Your task to perform on an android device: uninstall "Google Duo" Image 0: 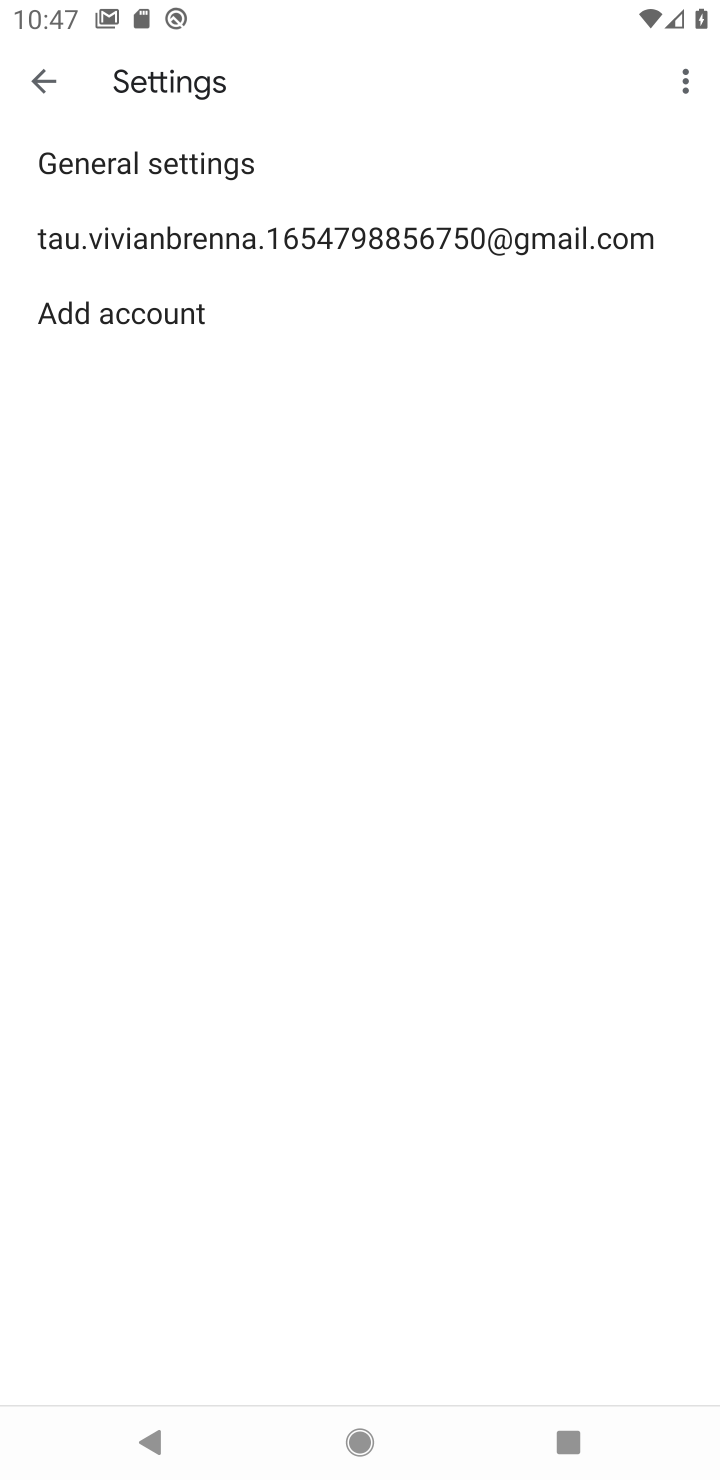
Step 0: click (40, 79)
Your task to perform on an android device: uninstall "Google Duo" Image 1: 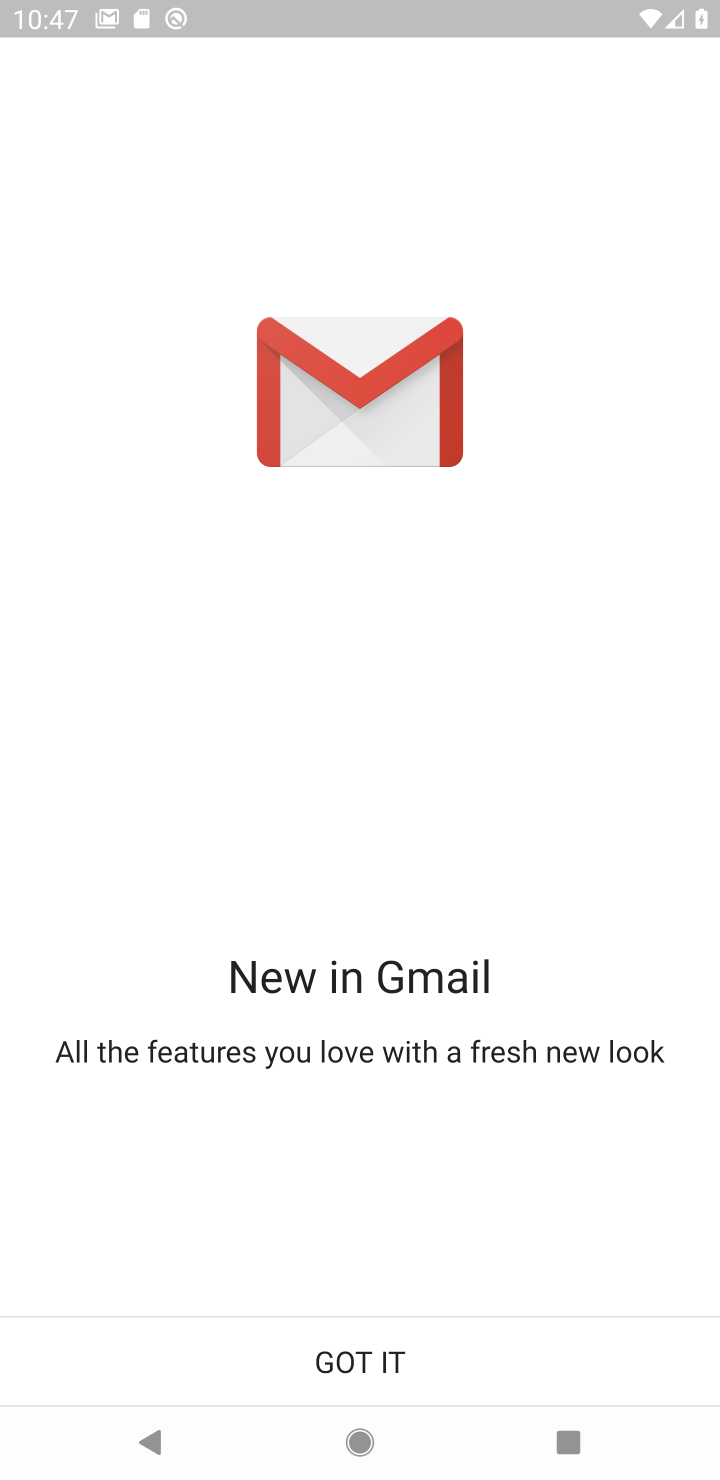
Step 1: press back button
Your task to perform on an android device: uninstall "Google Duo" Image 2: 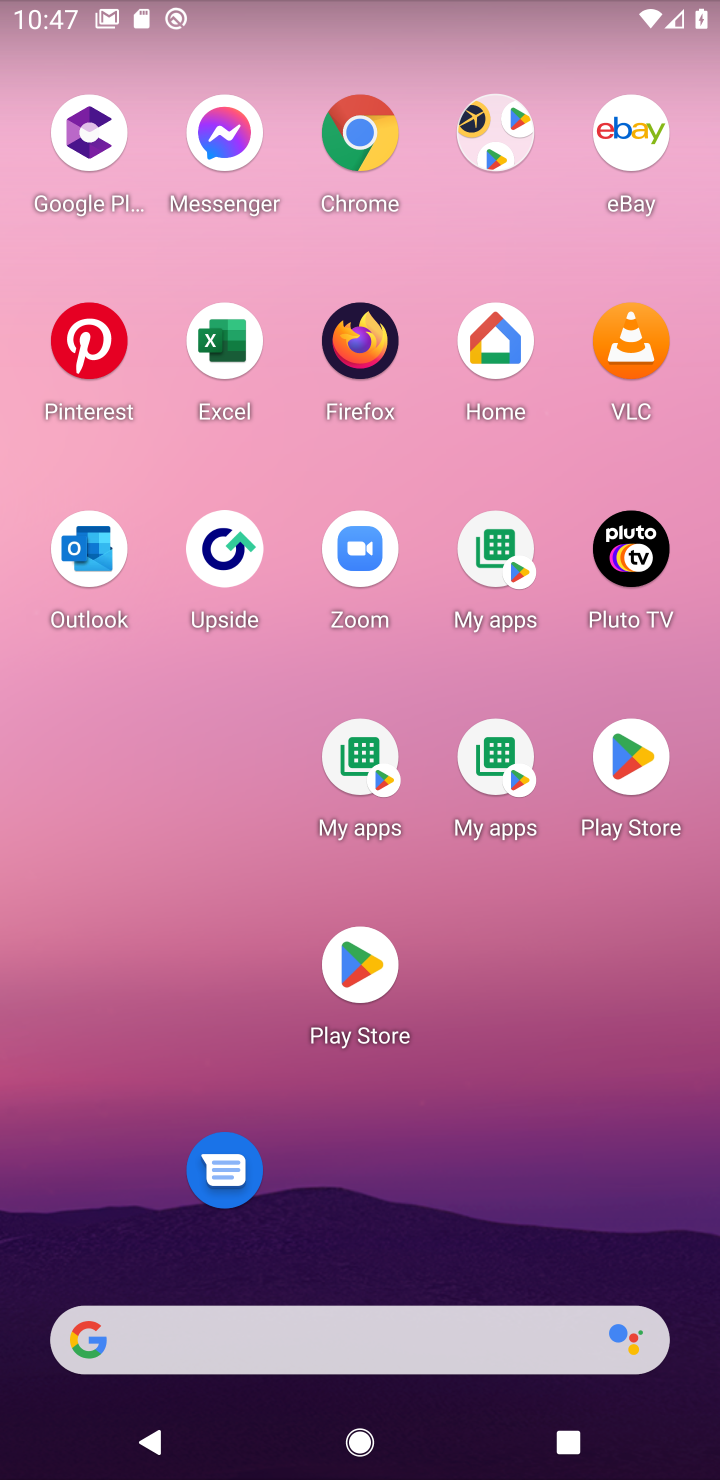
Step 2: drag from (440, 1093) to (201, 414)
Your task to perform on an android device: uninstall "Google Duo" Image 3: 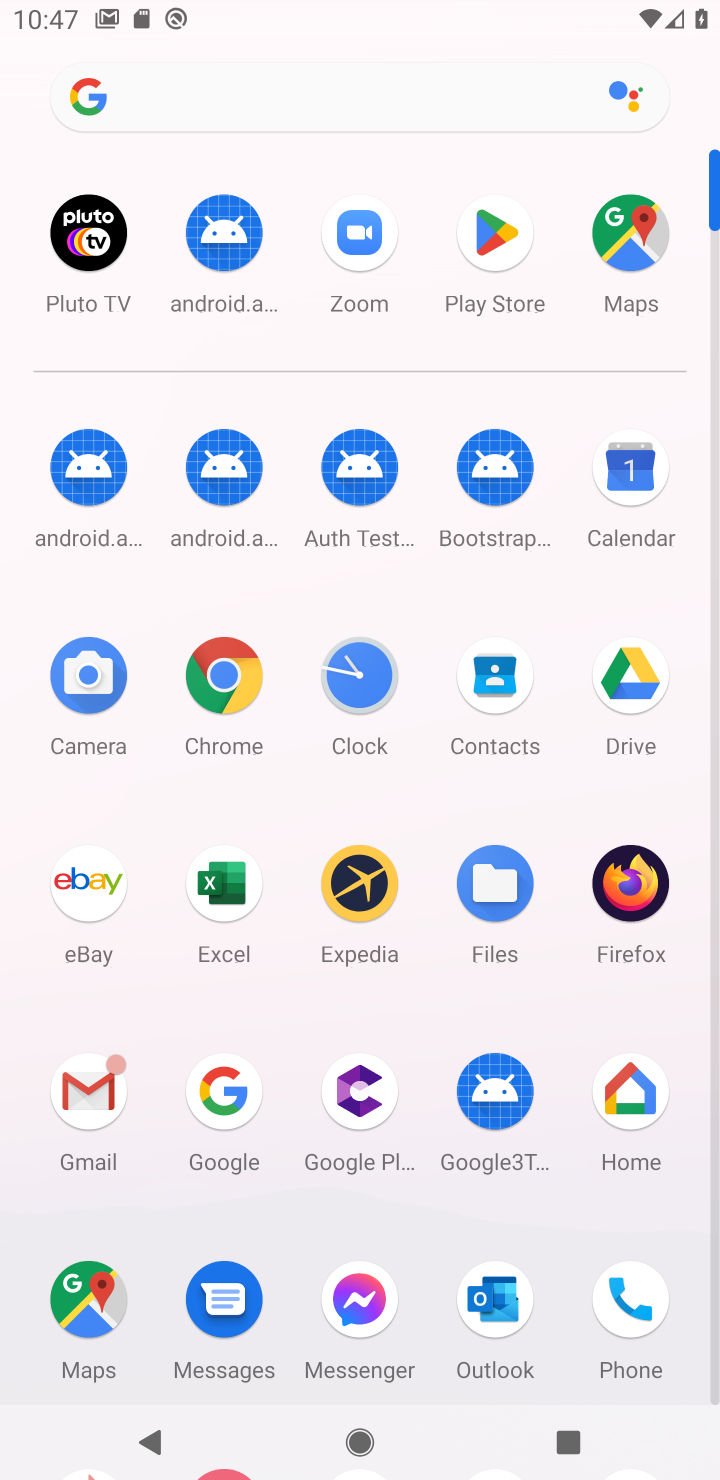
Step 3: click (627, 753)
Your task to perform on an android device: uninstall "Google Duo" Image 4: 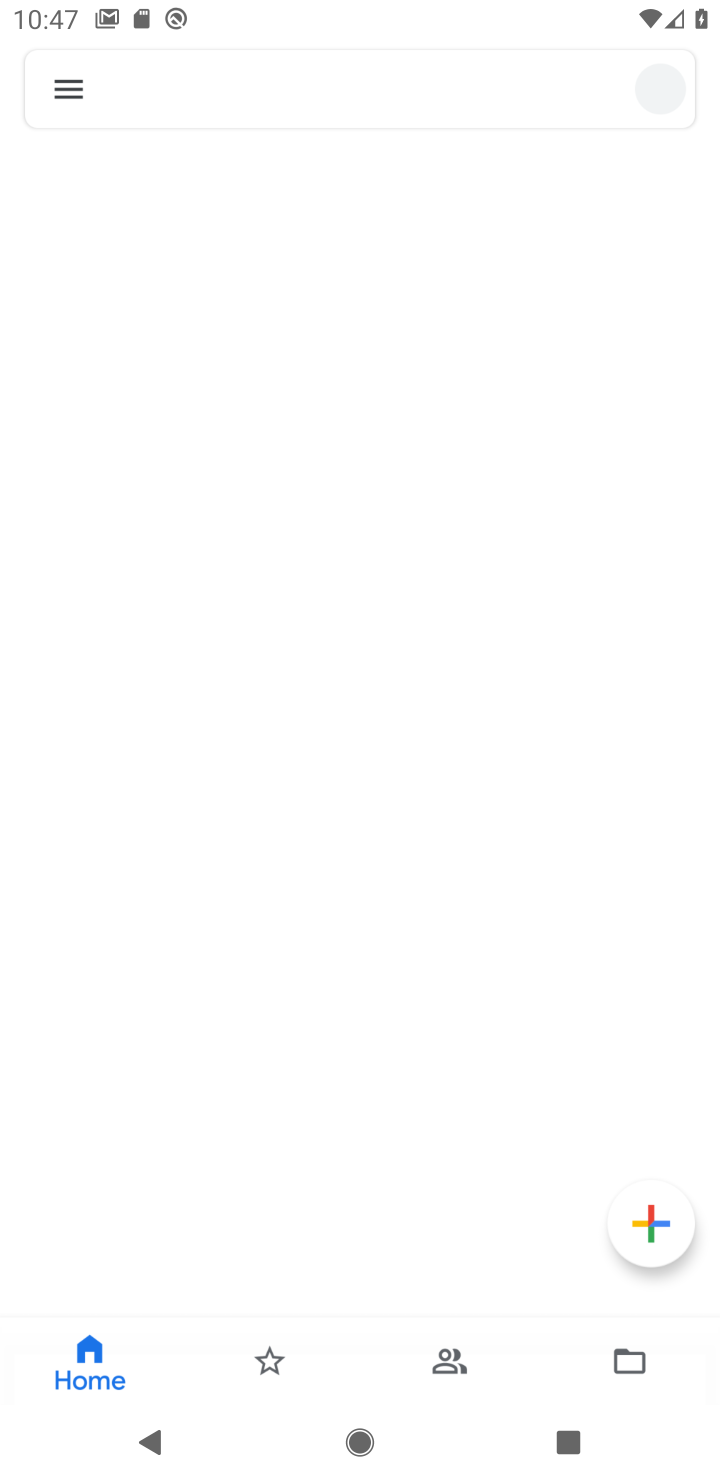
Step 4: click (497, 270)
Your task to perform on an android device: uninstall "Google Duo" Image 5: 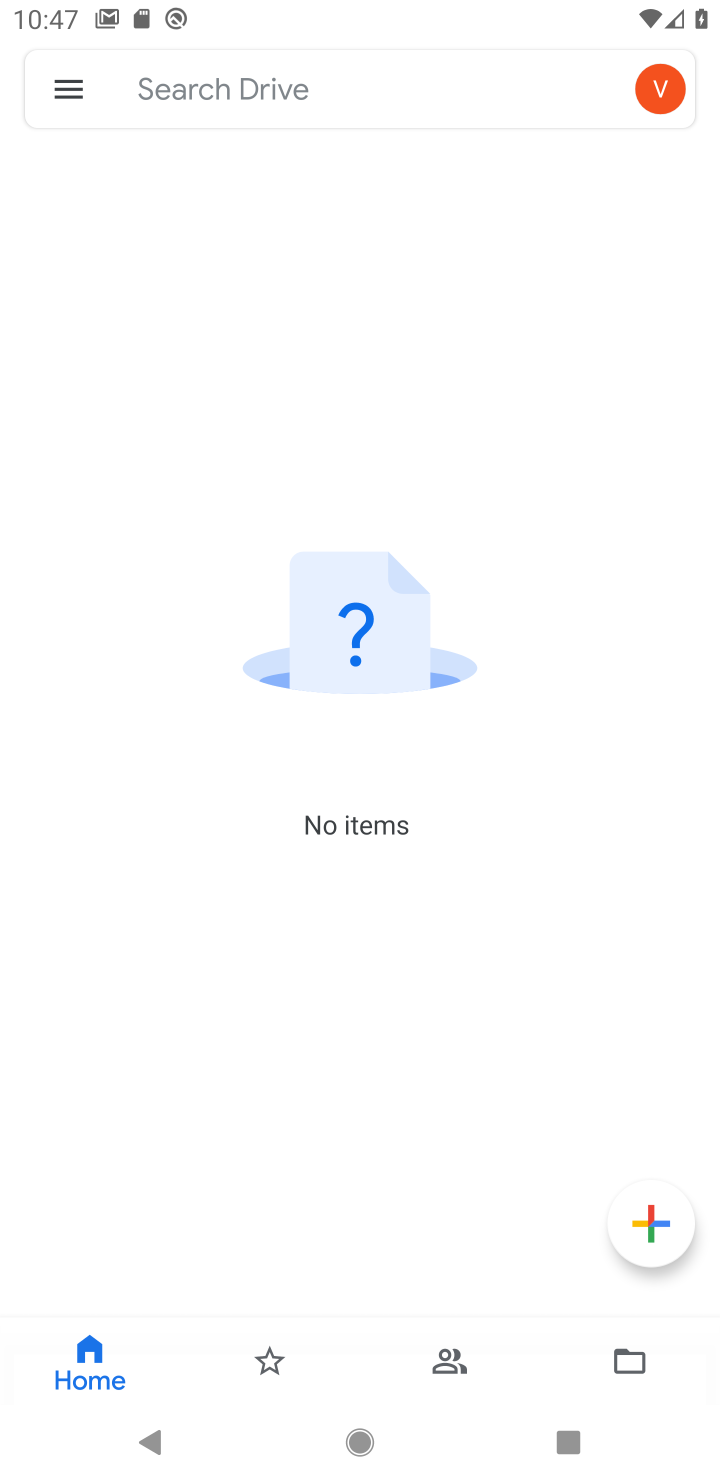
Step 5: click (494, 310)
Your task to perform on an android device: uninstall "Google Duo" Image 6: 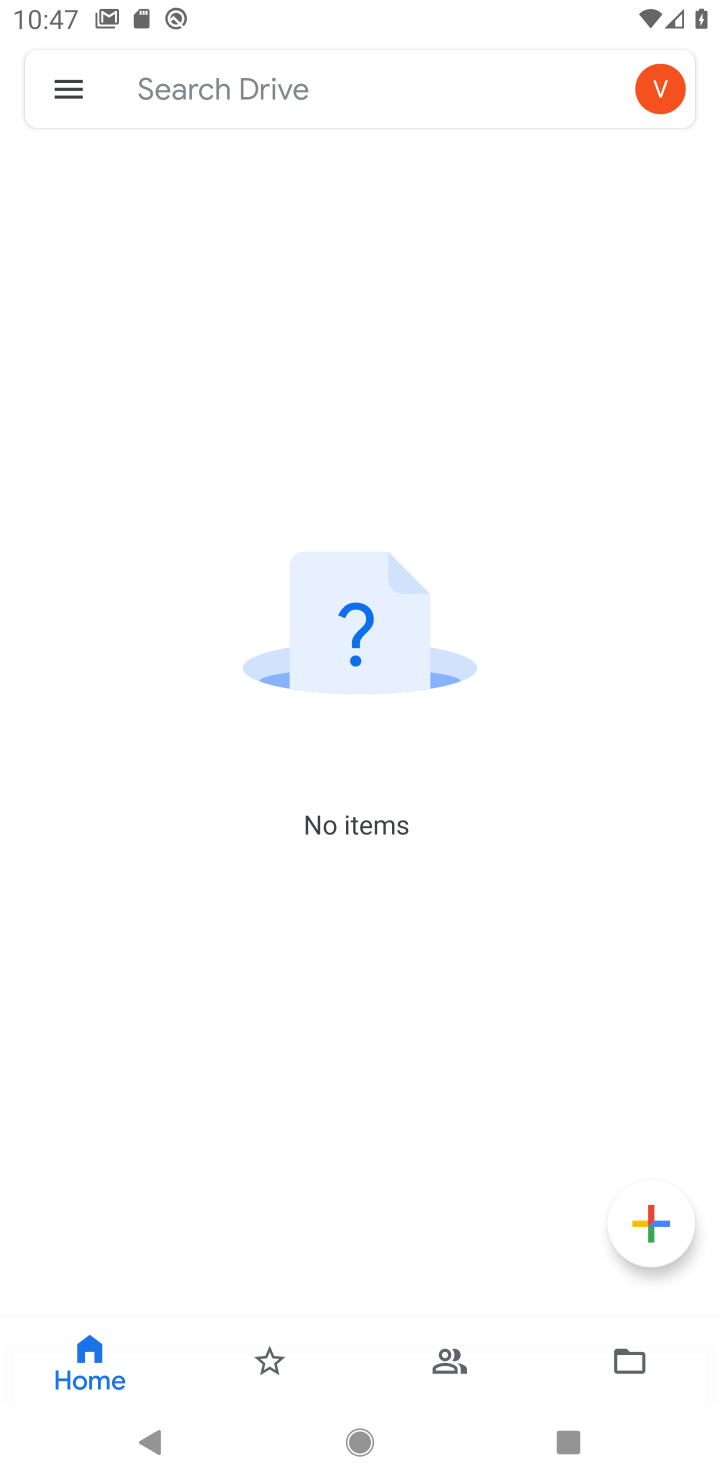
Step 6: press back button
Your task to perform on an android device: uninstall "Google Duo" Image 7: 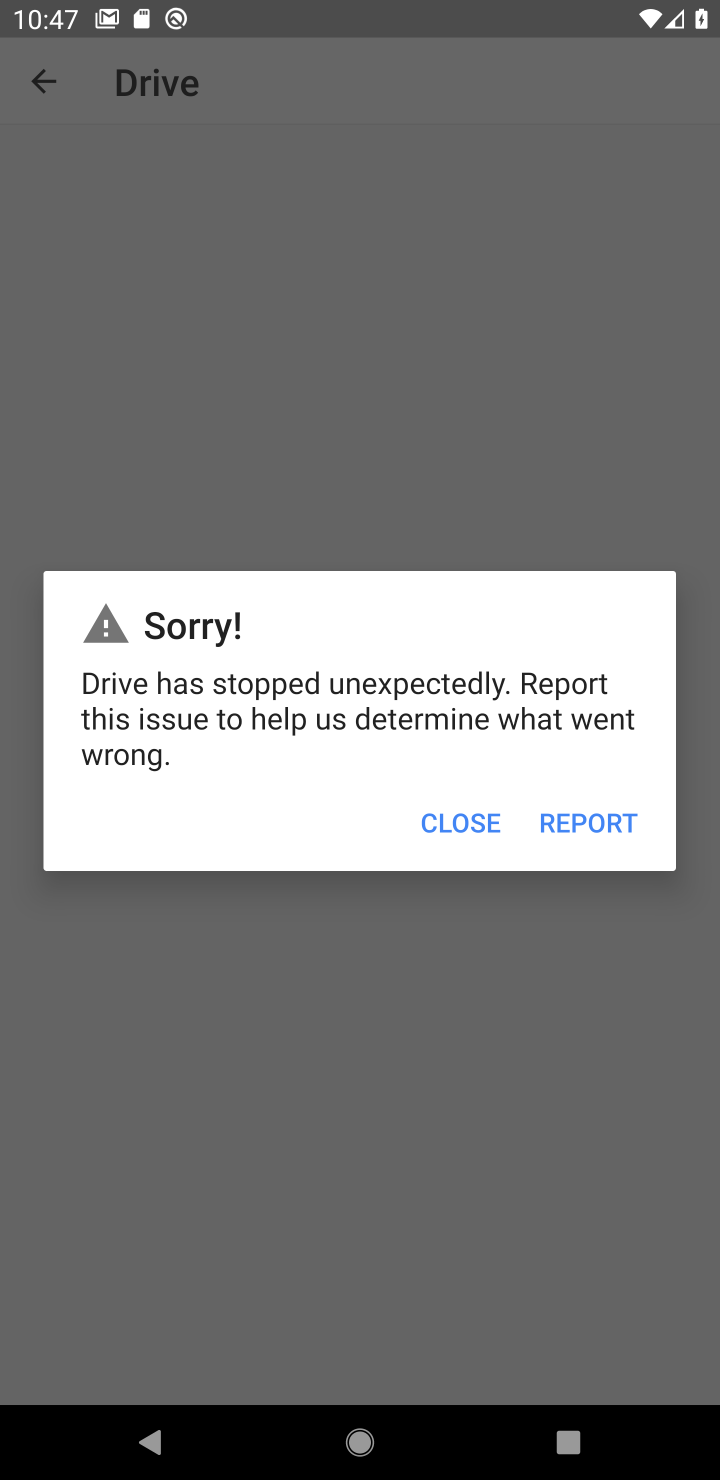
Step 7: click (481, 818)
Your task to perform on an android device: uninstall "Google Duo" Image 8: 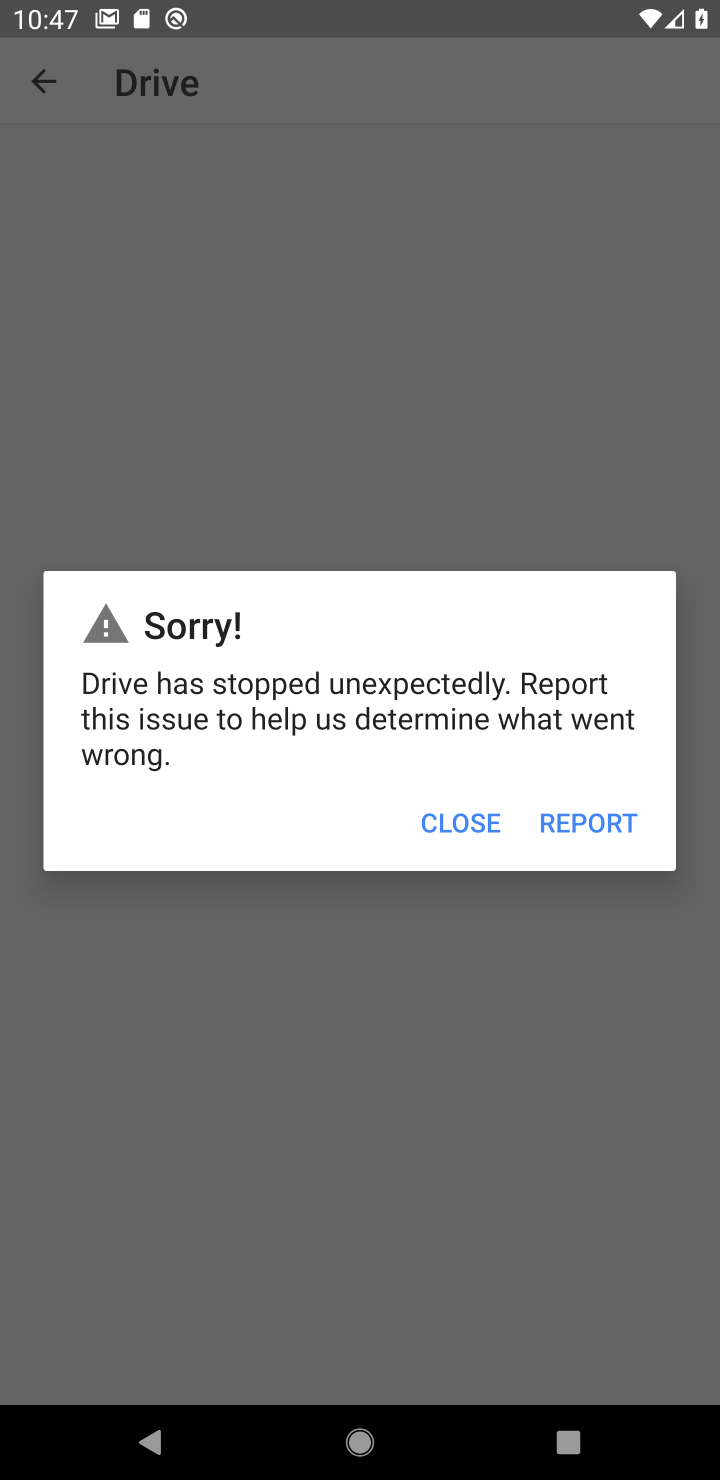
Step 8: click (481, 818)
Your task to perform on an android device: uninstall "Google Duo" Image 9: 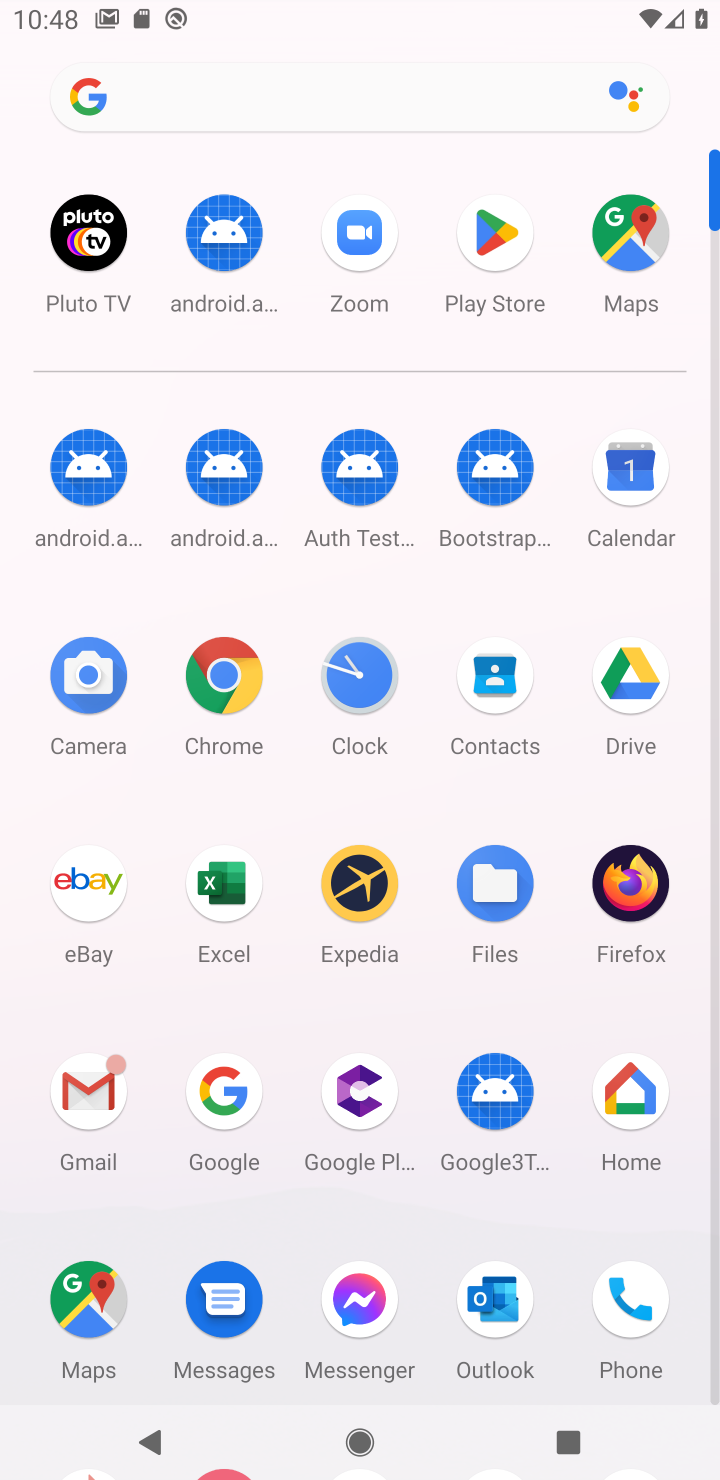
Step 9: click (497, 245)
Your task to perform on an android device: uninstall "Google Duo" Image 10: 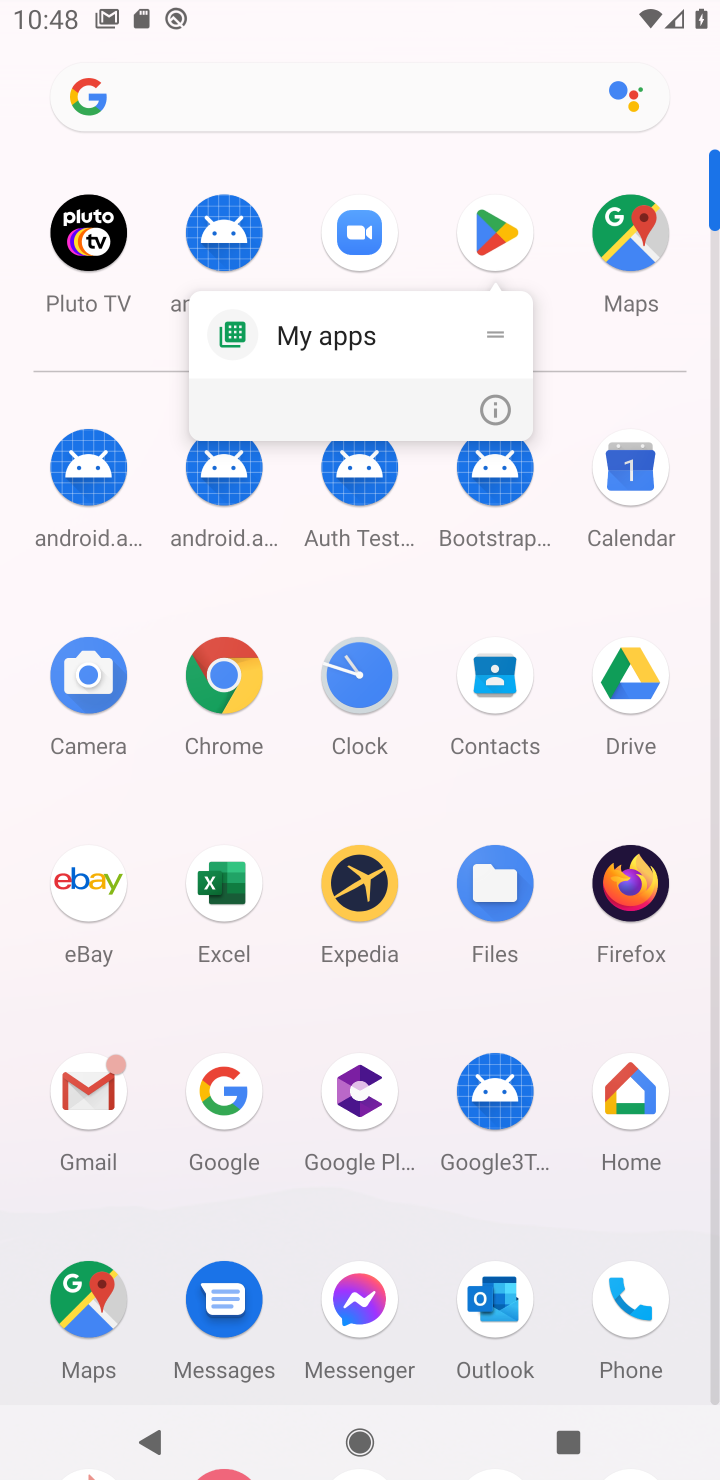
Step 10: click (496, 245)
Your task to perform on an android device: uninstall "Google Duo" Image 11: 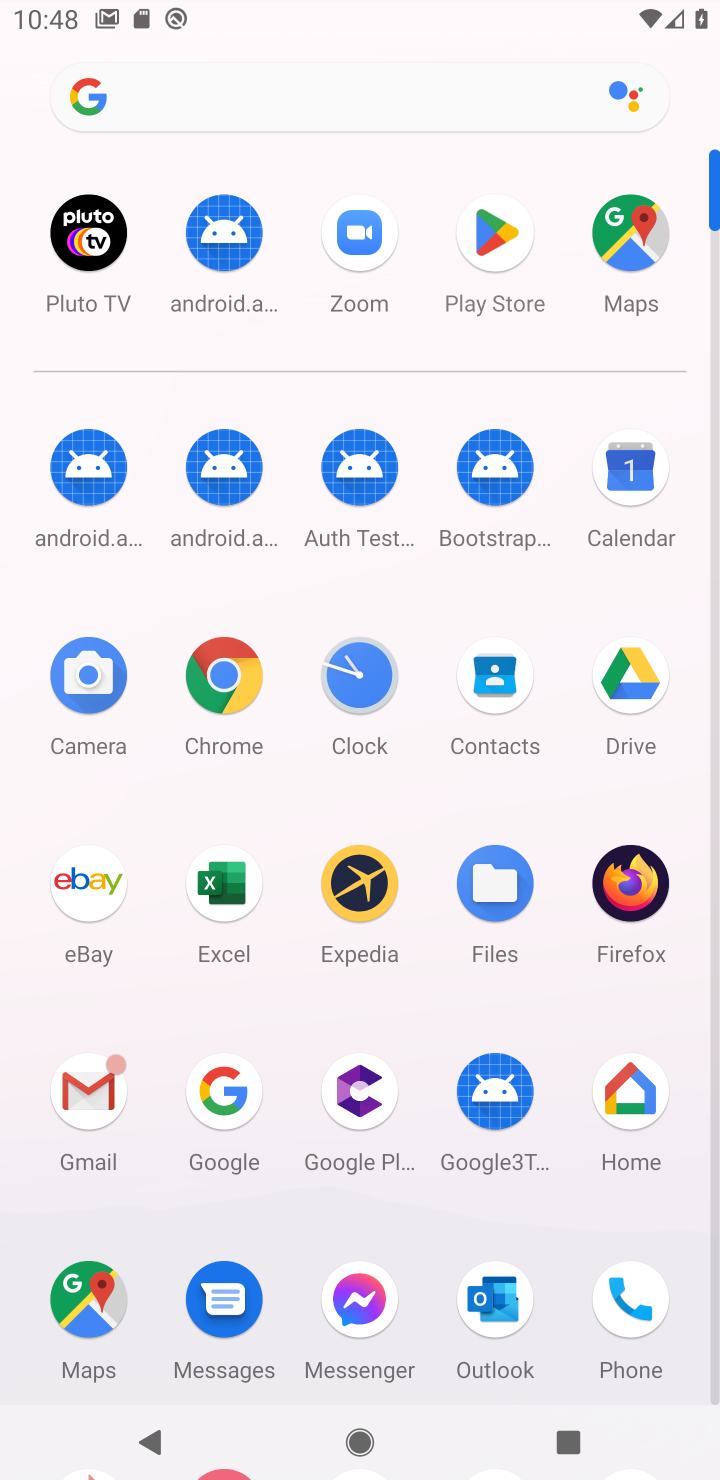
Step 11: click (363, 337)
Your task to perform on an android device: uninstall "Google Duo" Image 12: 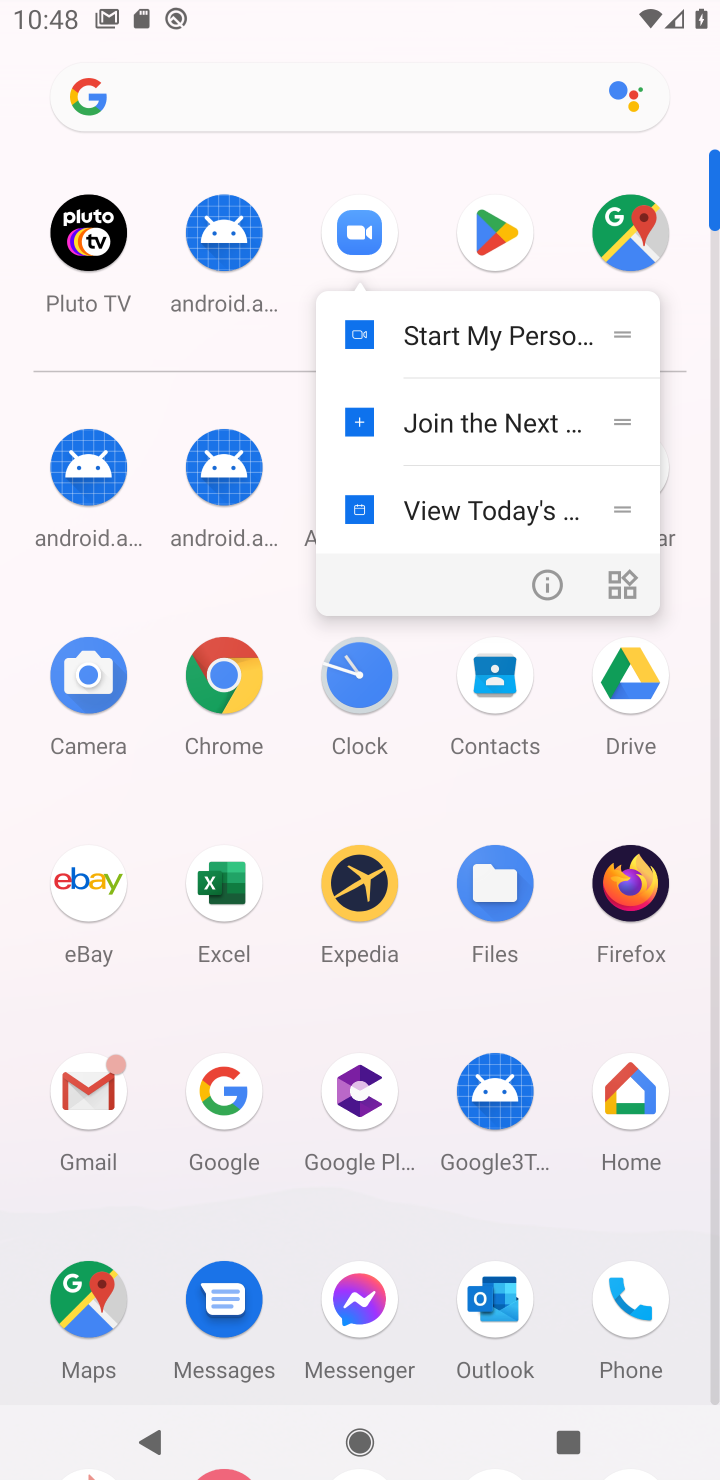
Step 12: click (491, 244)
Your task to perform on an android device: uninstall "Google Duo" Image 13: 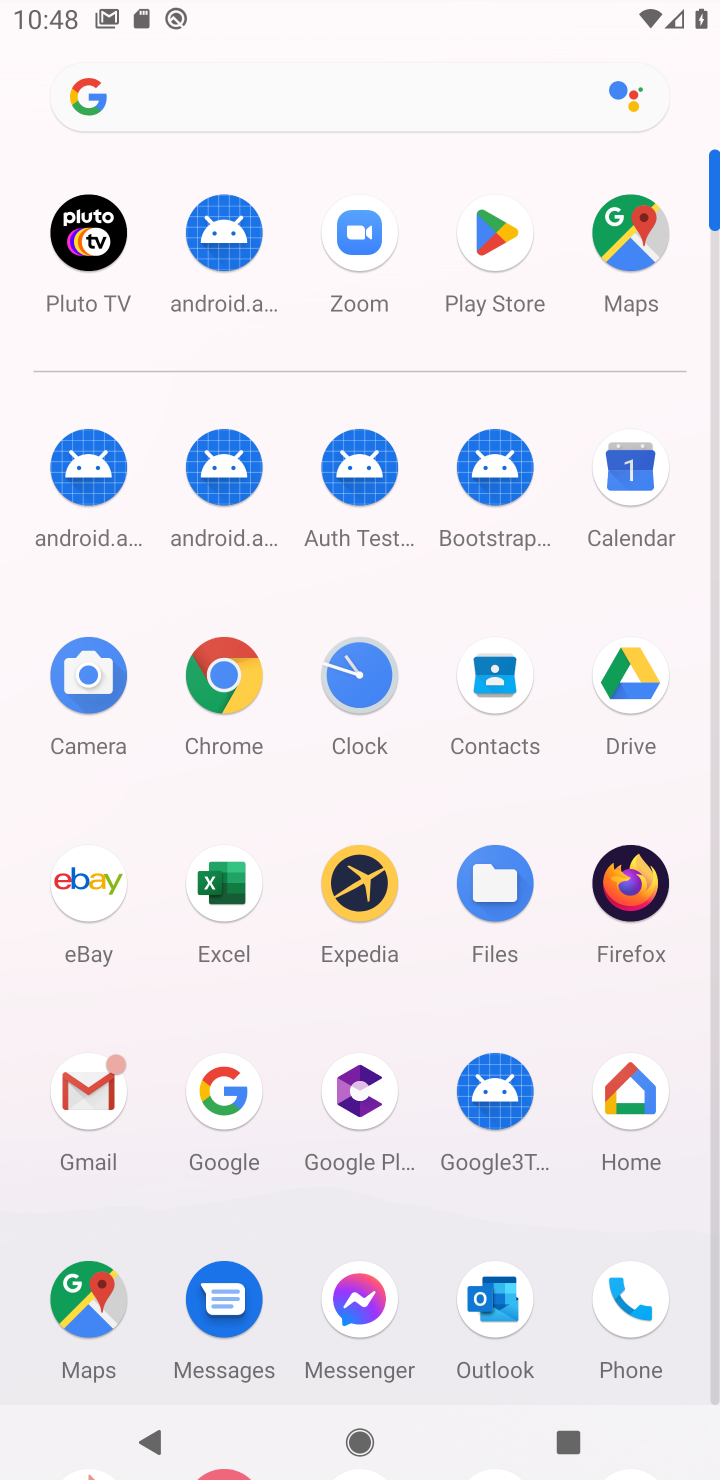
Step 13: click (501, 230)
Your task to perform on an android device: uninstall "Google Duo" Image 14: 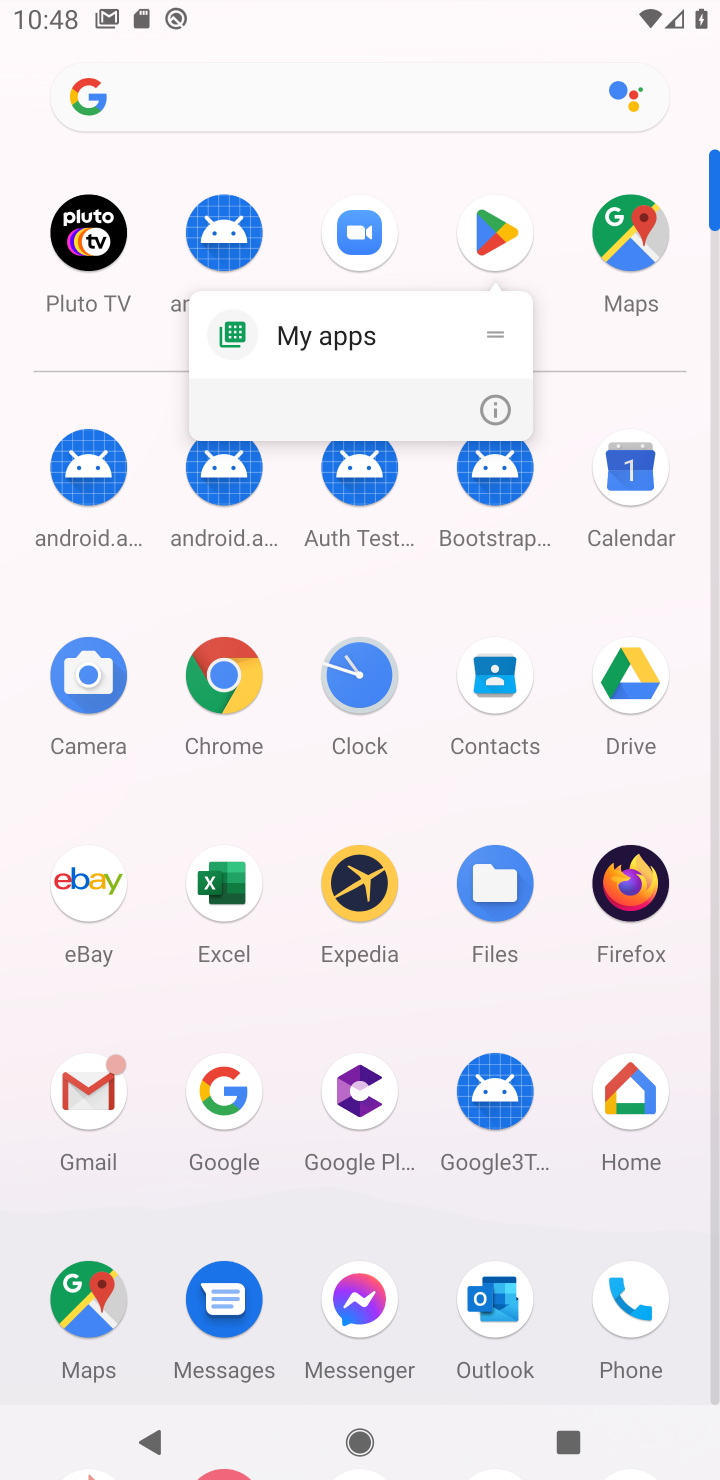
Step 14: click (476, 237)
Your task to perform on an android device: uninstall "Google Duo" Image 15: 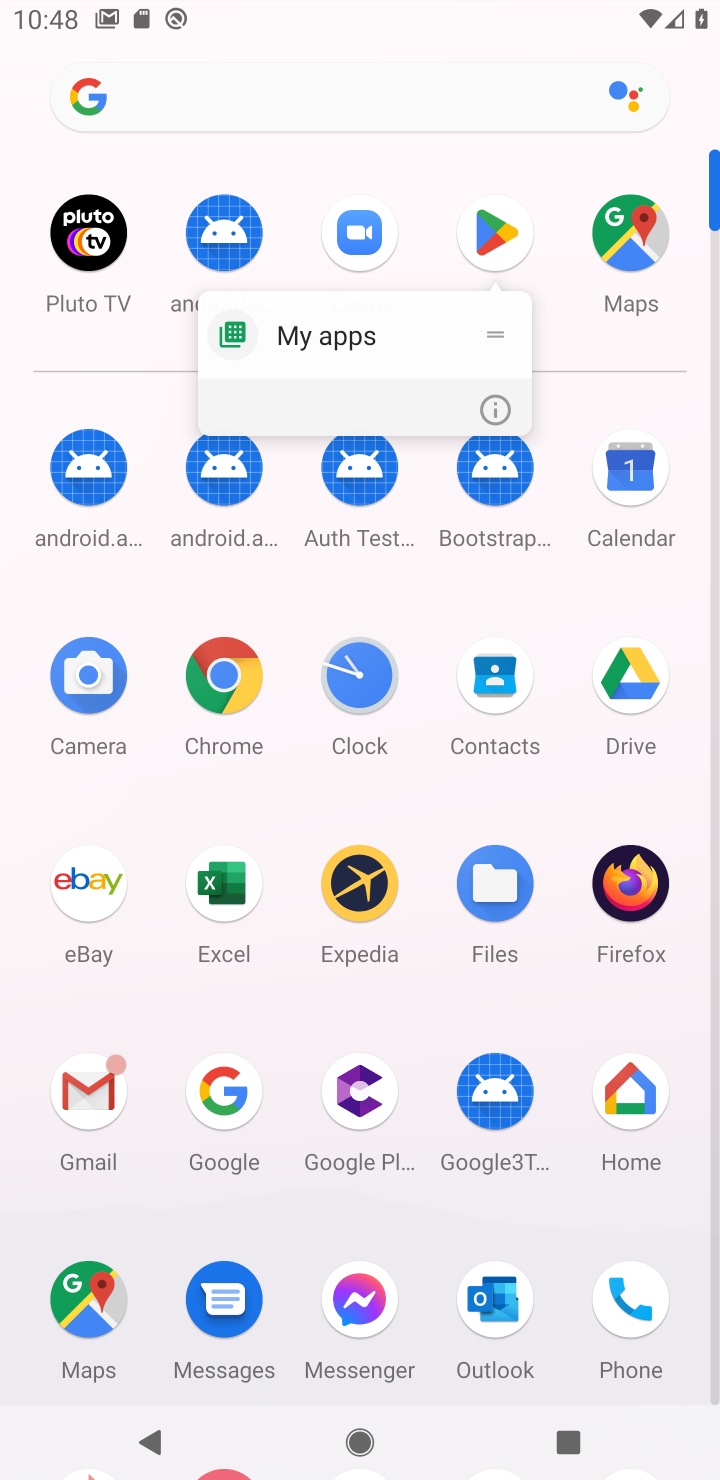
Step 15: click (494, 223)
Your task to perform on an android device: uninstall "Google Duo" Image 16: 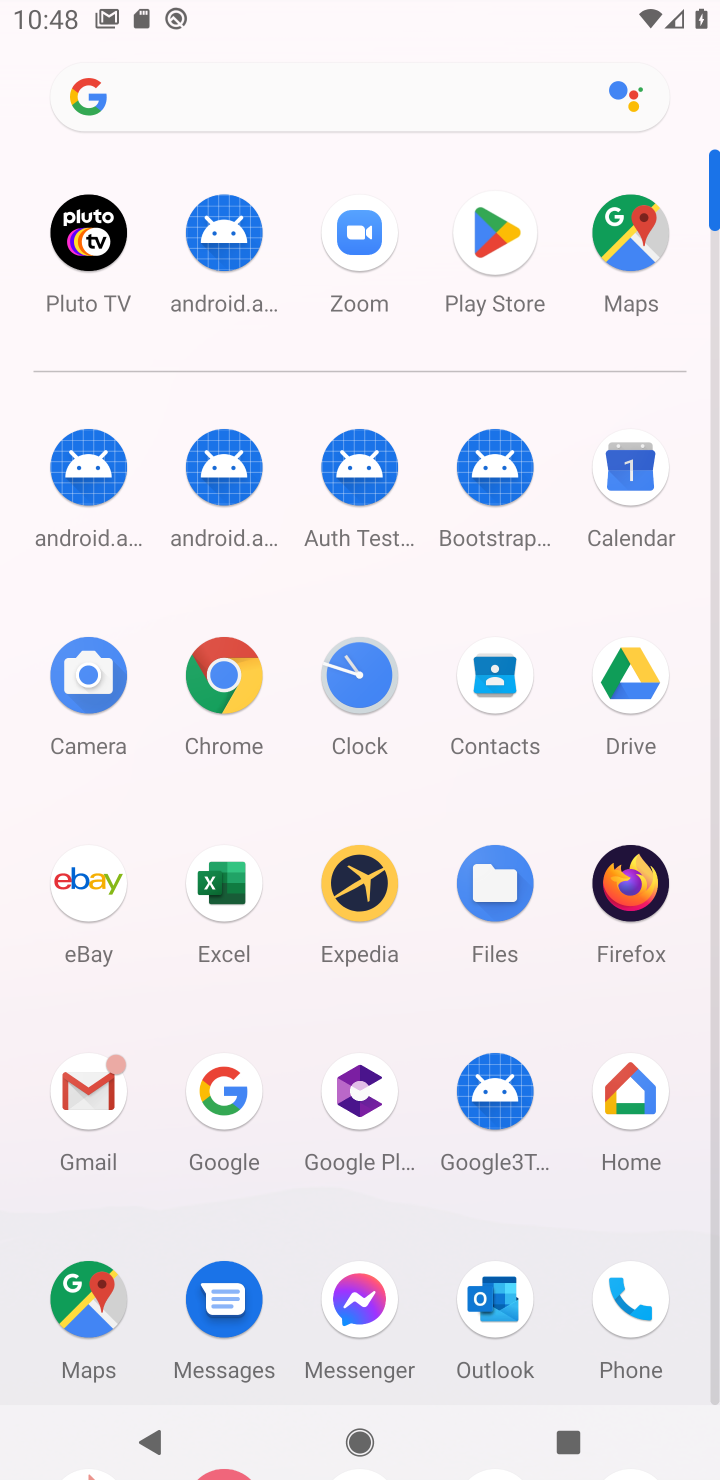
Step 16: click (516, 198)
Your task to perform on an android device: uninstall "Google Duo" Image 17: 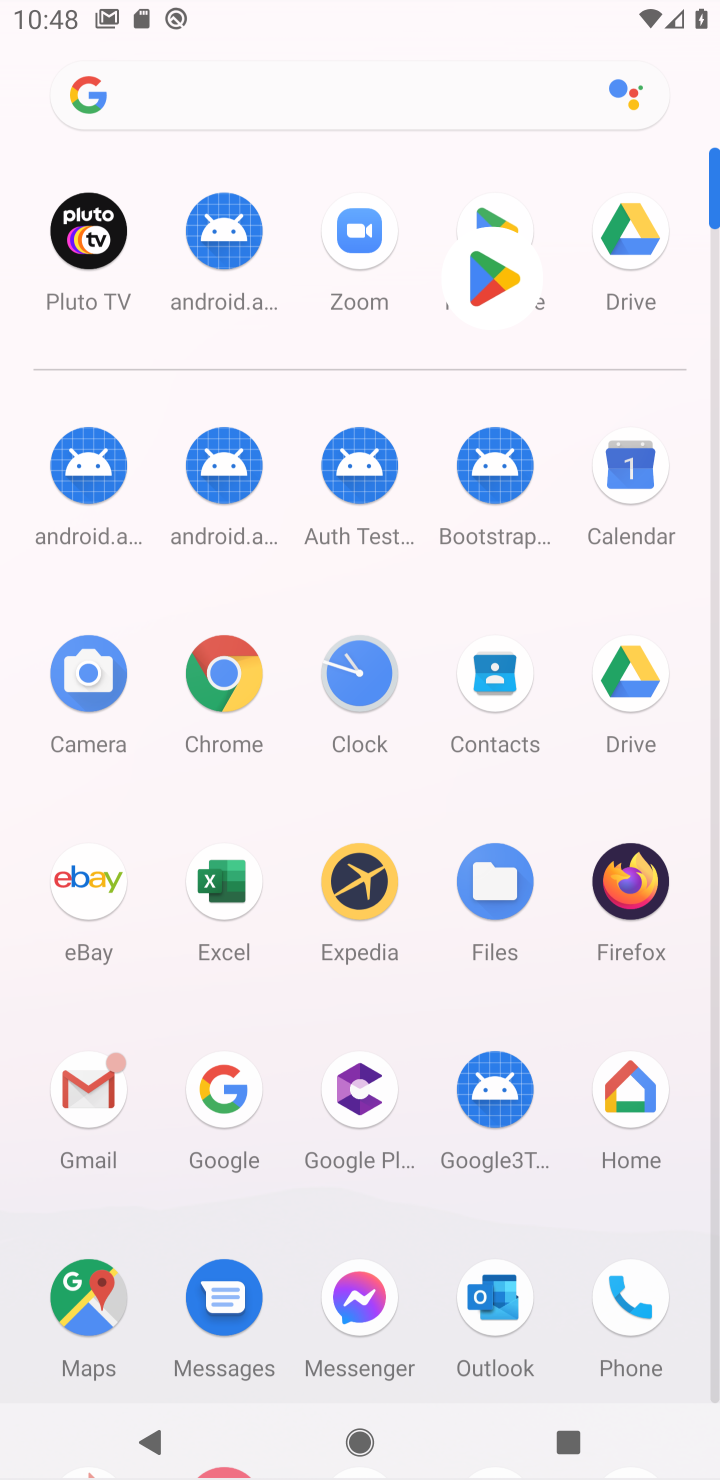
Step 17: click (518, 200)
Your task to perform on an android device: uninstall "Google Duo" Image 18: 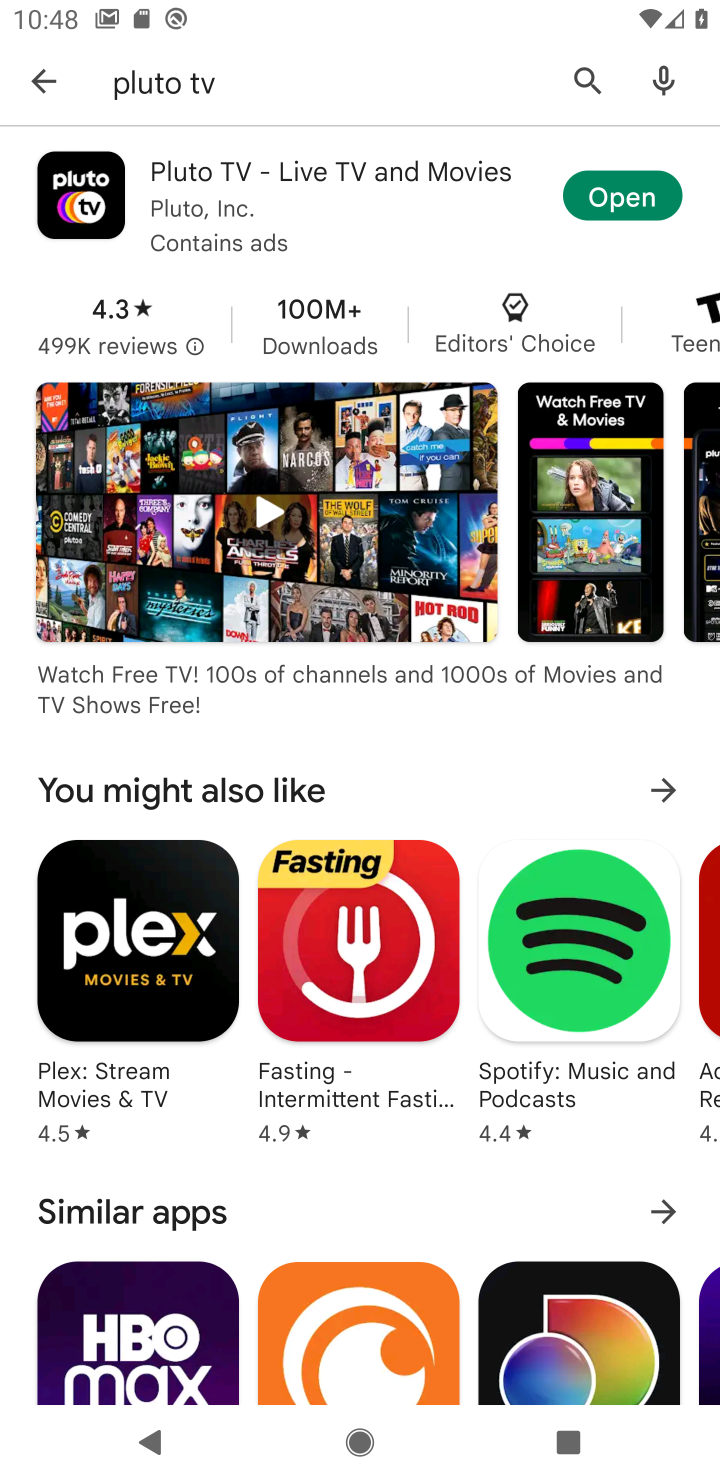
Step 18: click (500, 234)
Your task to perform on an android device: uninstall "Google Duo" Image 19: 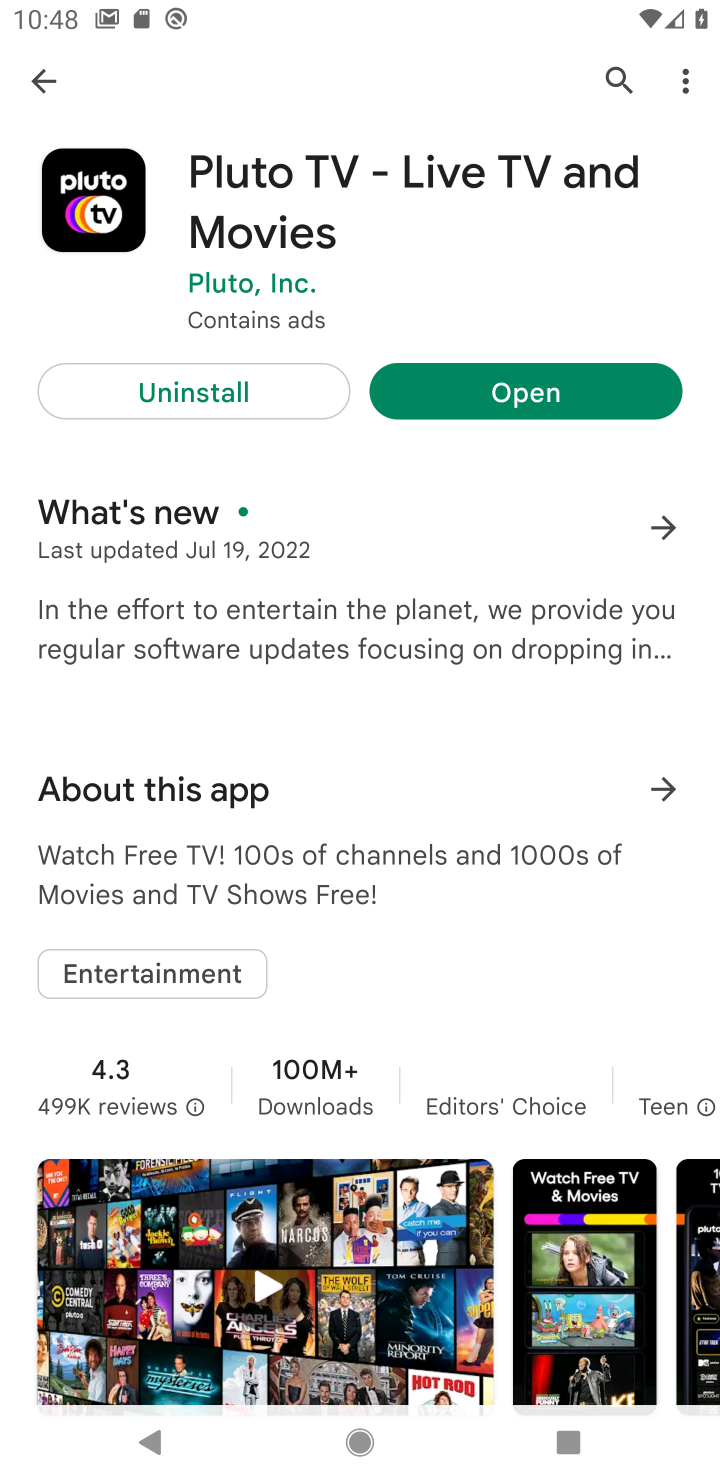
Step 19: click (47, 82)
Your task to perform on an android device: uninstall "Google Duo" Image 20: 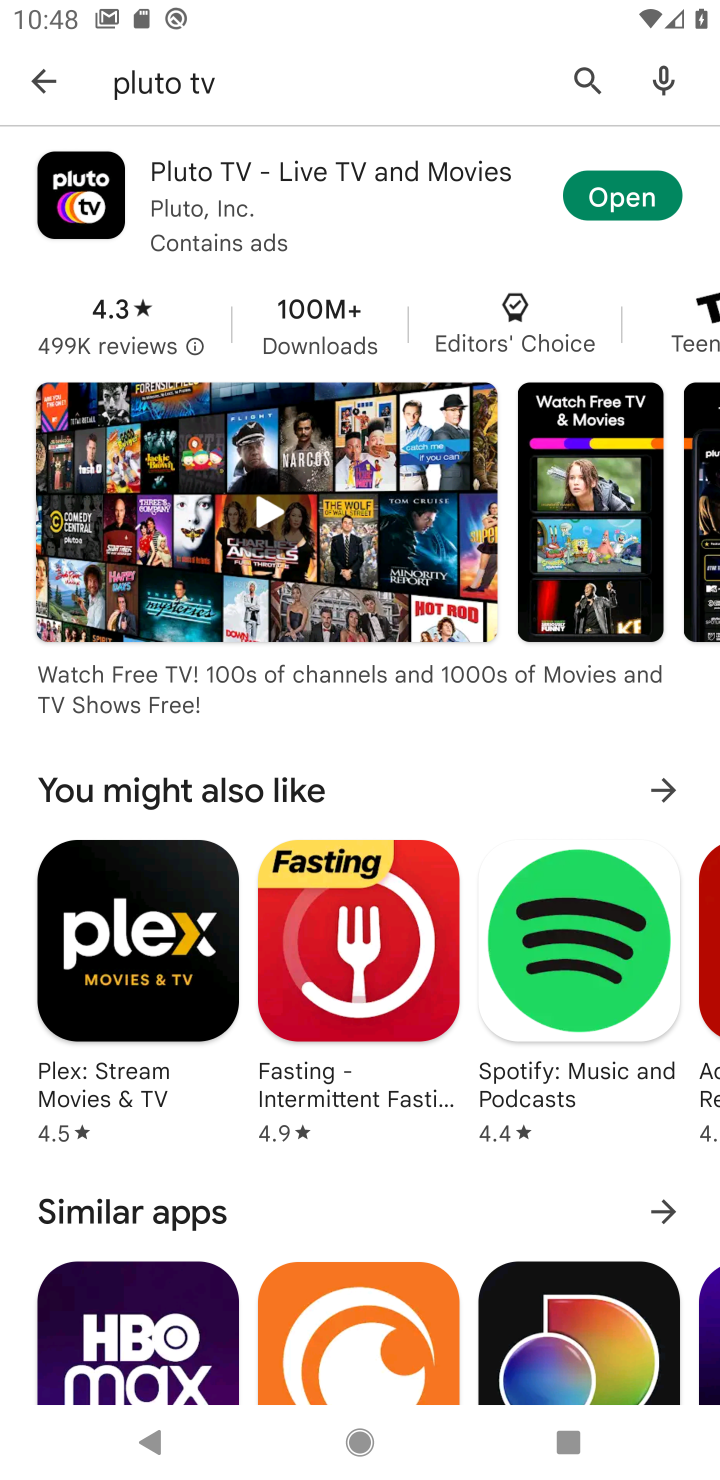
Step 20: click (250, 76)
Your task to perform on an android device: uninstall "Google Duo" Image 21: 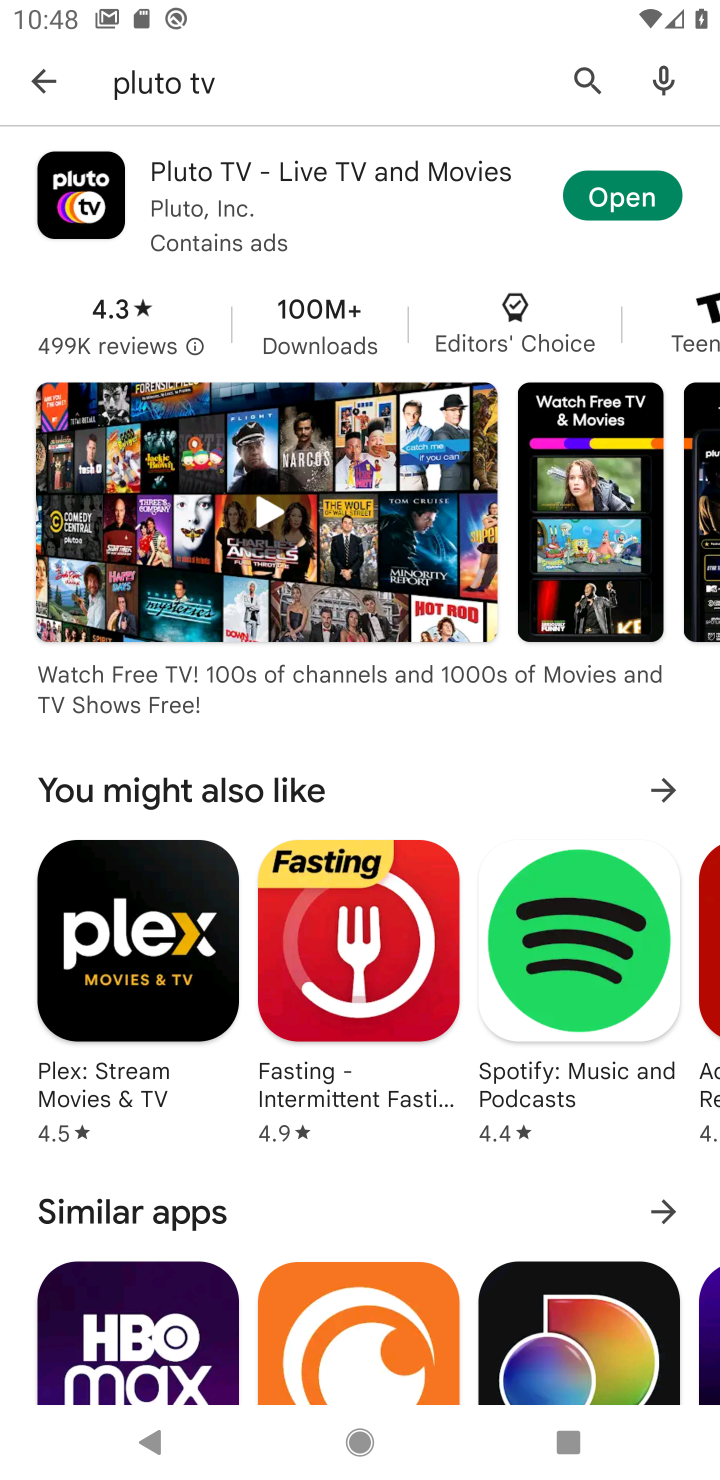
Step 21: click (48, 90)
Your task to perform on an android device: uninstall "Google Duo" Image 22: 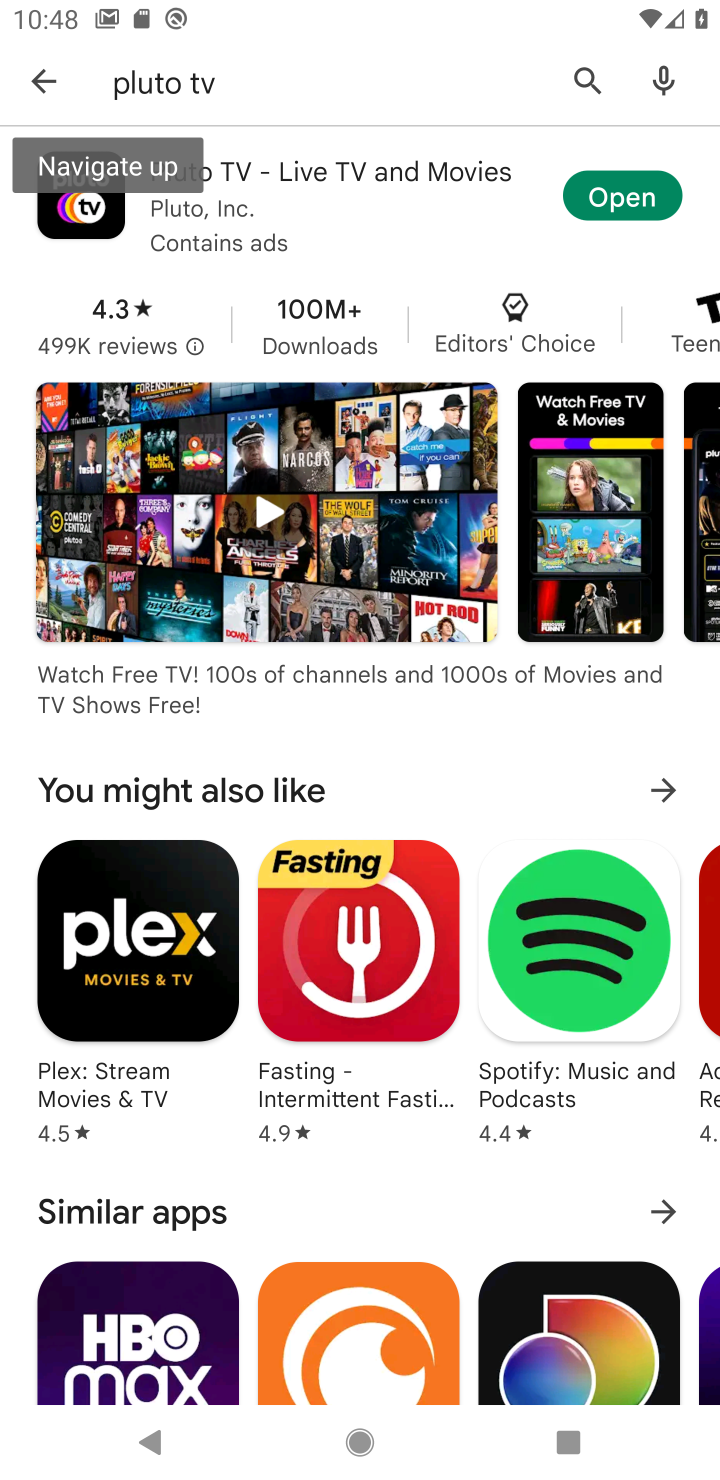
Step 22: click (65, 83)
Your task to perform on an android device: uninstall "Google Duo" Image 23: 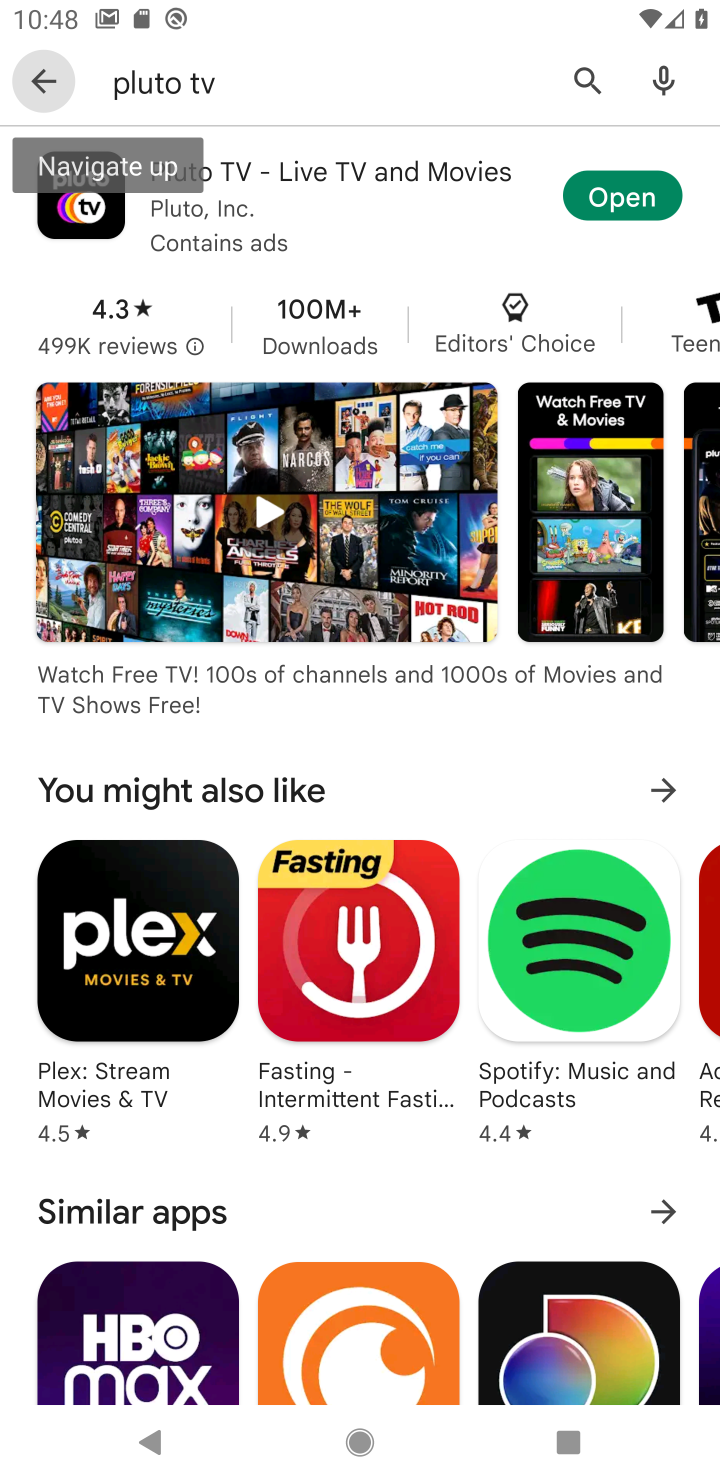
Step 23: click (50, 87)
Your task to perform on an android device: uninstall "Google Duo" Image 24: 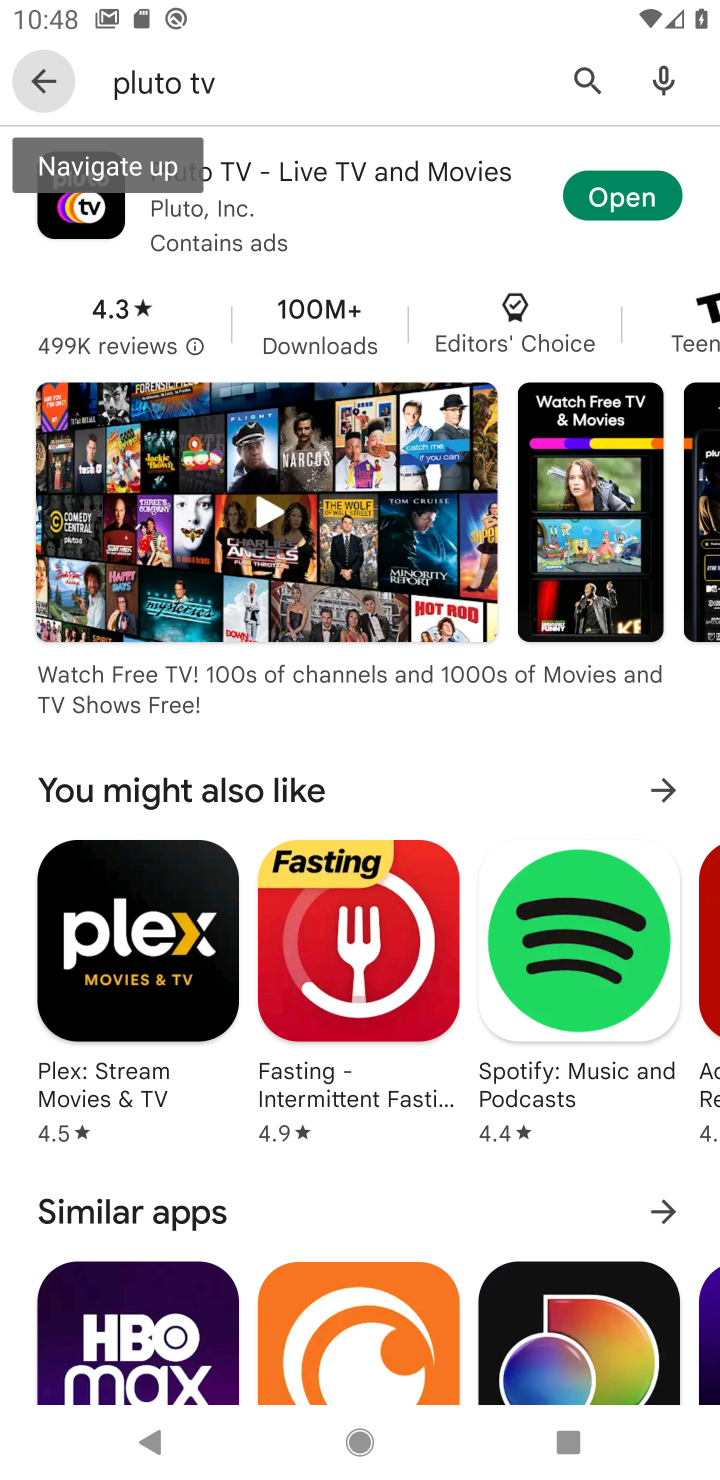
Step 24: click (275, 89)
Your task to perform on an android device: uninstall "Google Duo" Image 25: 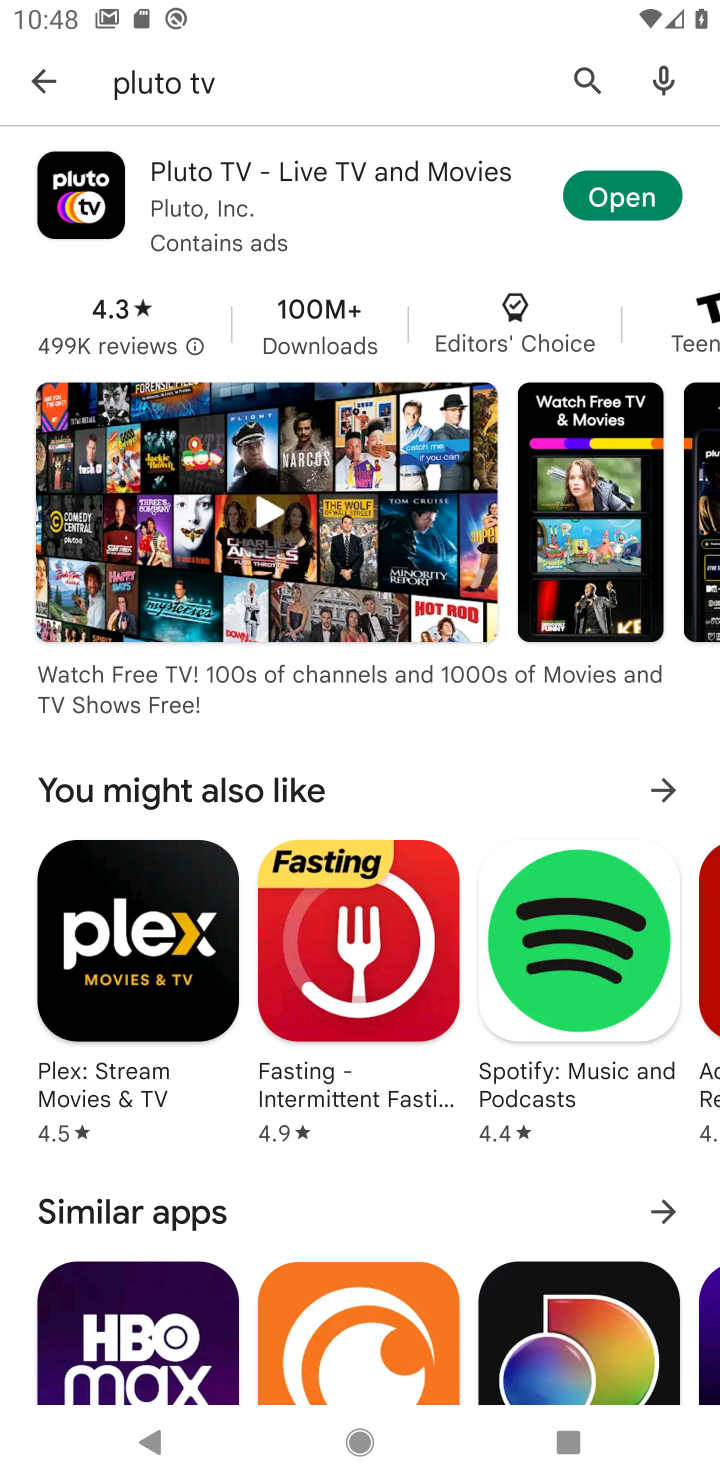
Step 25: click (74, 82)
Your task to perform on an android device: uninstall "Google Duo" Image 26: 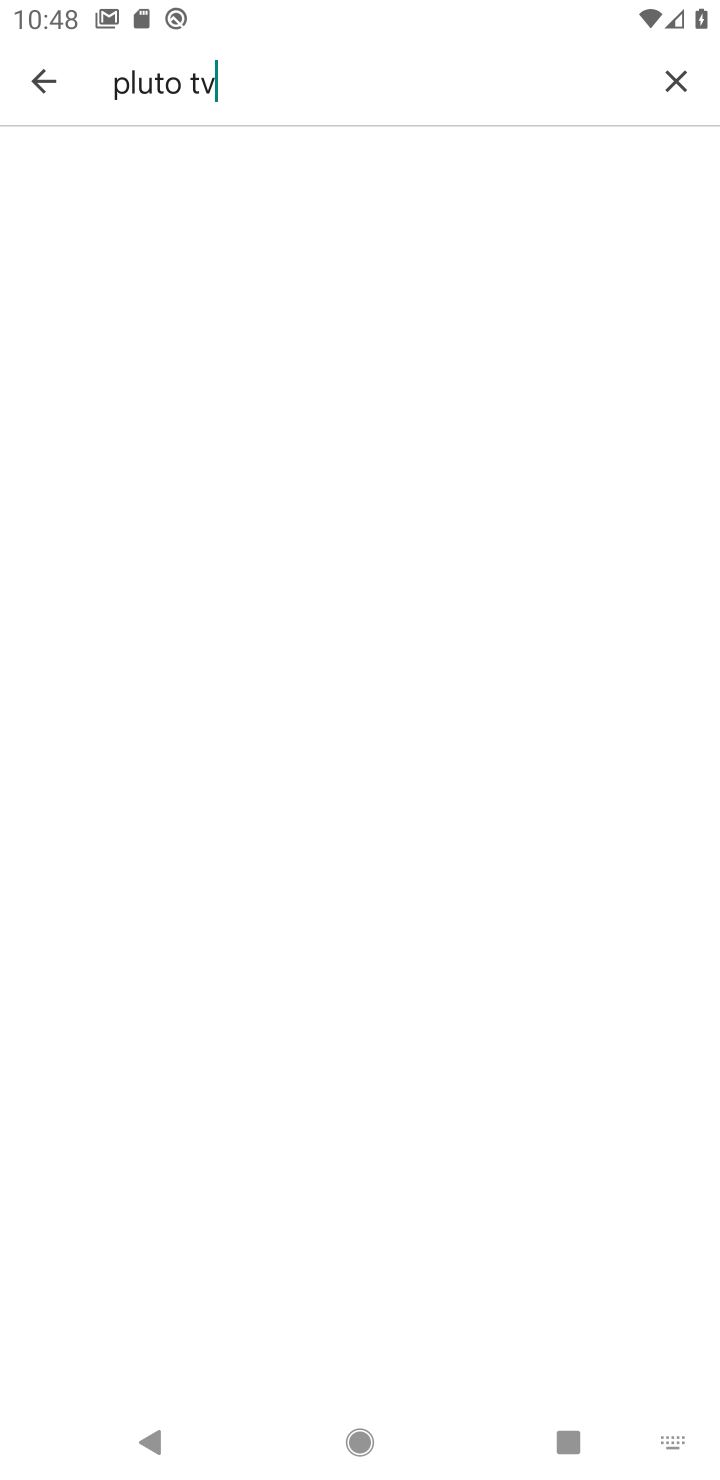
Step 26: click (53, 72)
Your task to perform on an android device: uninstall "Google Duo" Image 27: 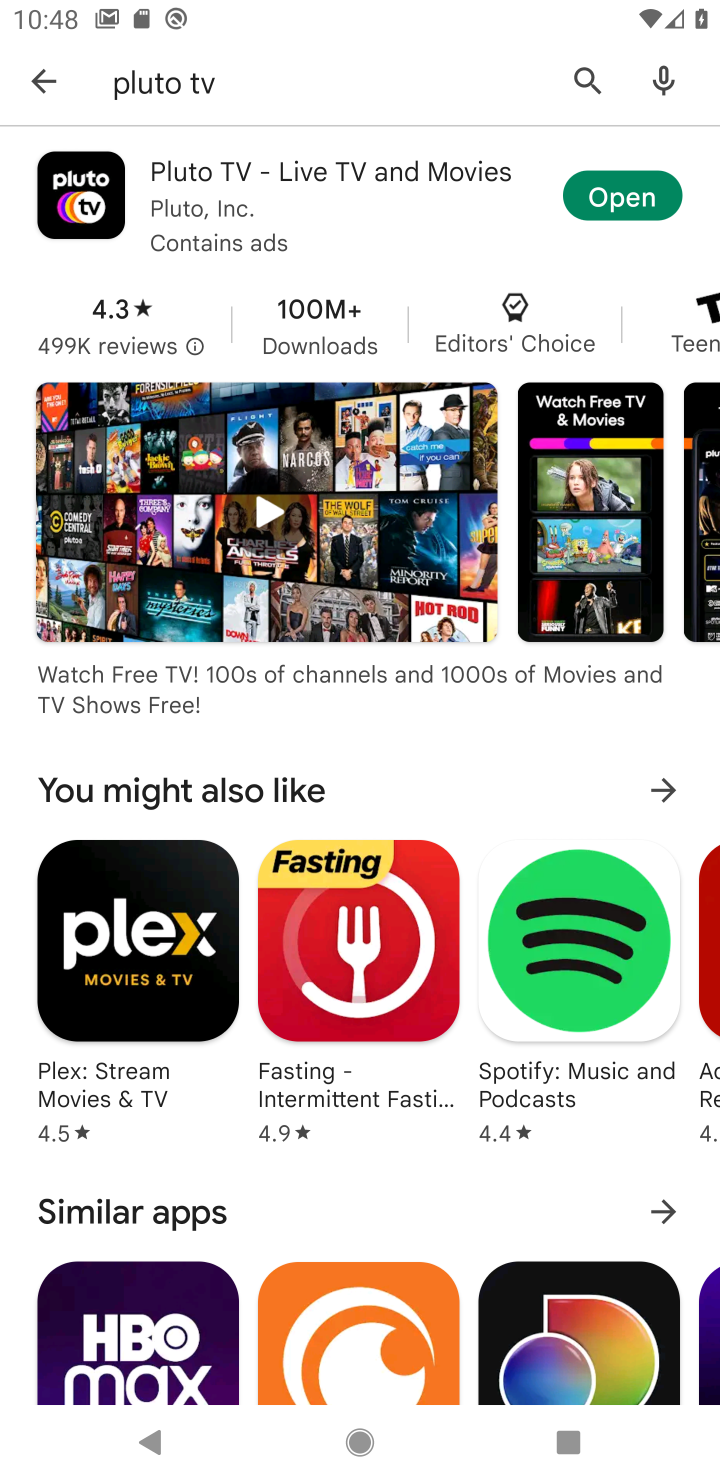
Step 27: click (48, 92)
Your task to perform on an android device: uninstall "Google Duo" Image 28: 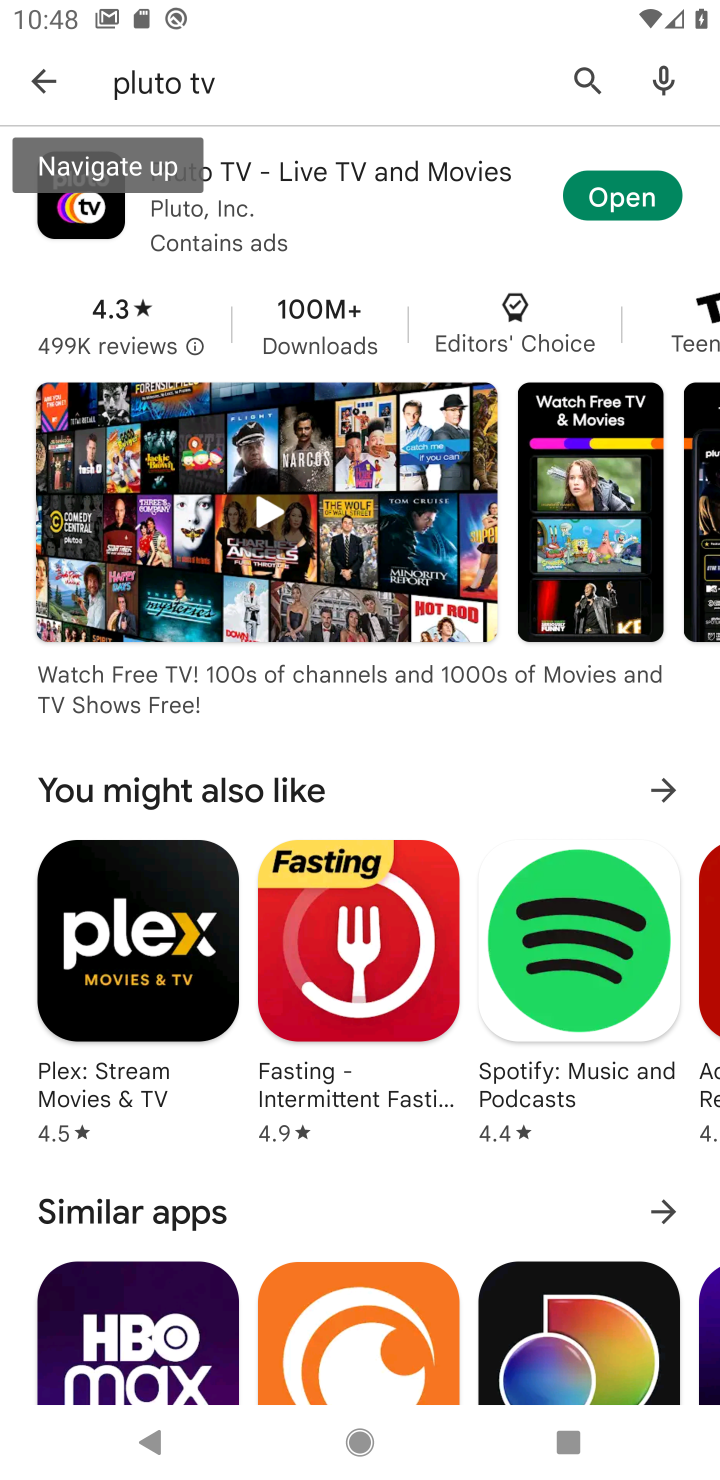
Step 28: click (55, 68)
Your task to perform on an android device: uninstall "Google Duo" Image 29: 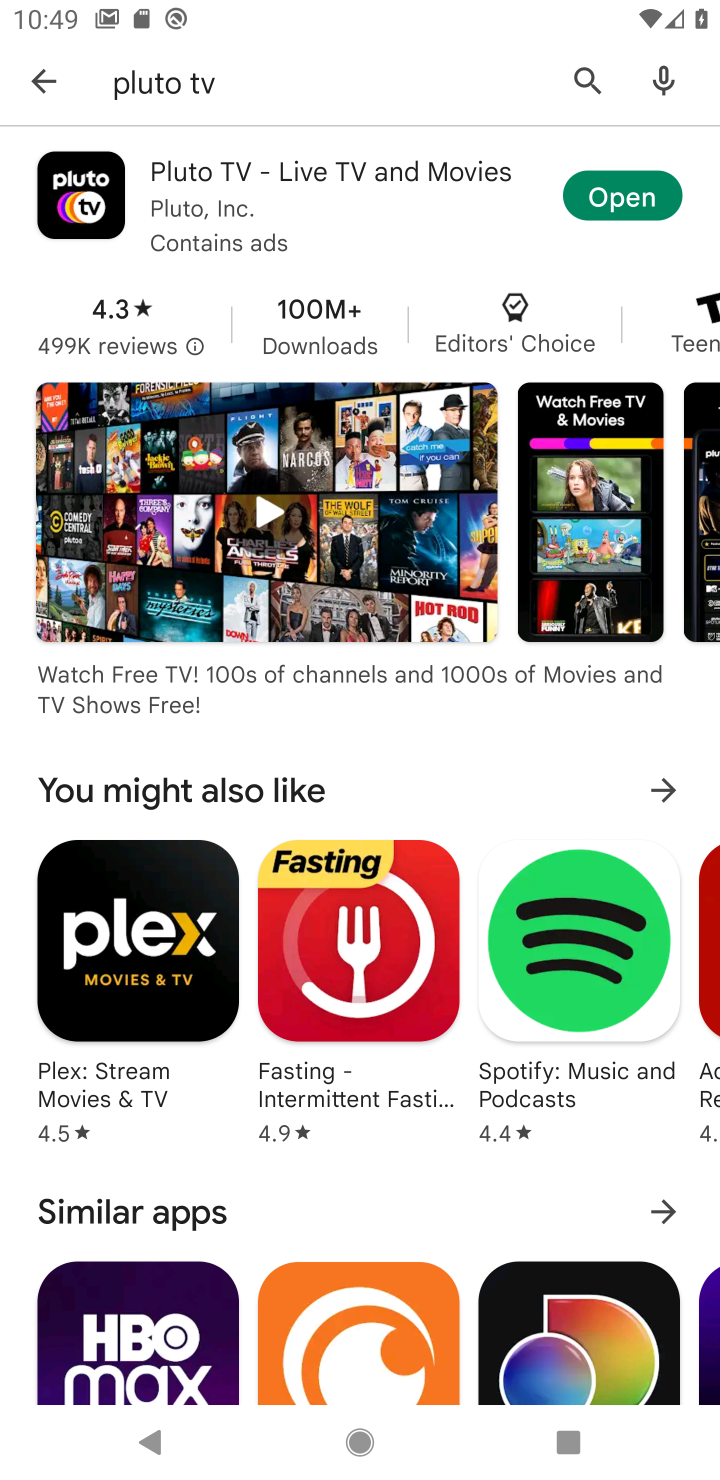
Step 29: click (19, 105)
Your task to perform on an android device: uninstall "Google Duo" Image 30: 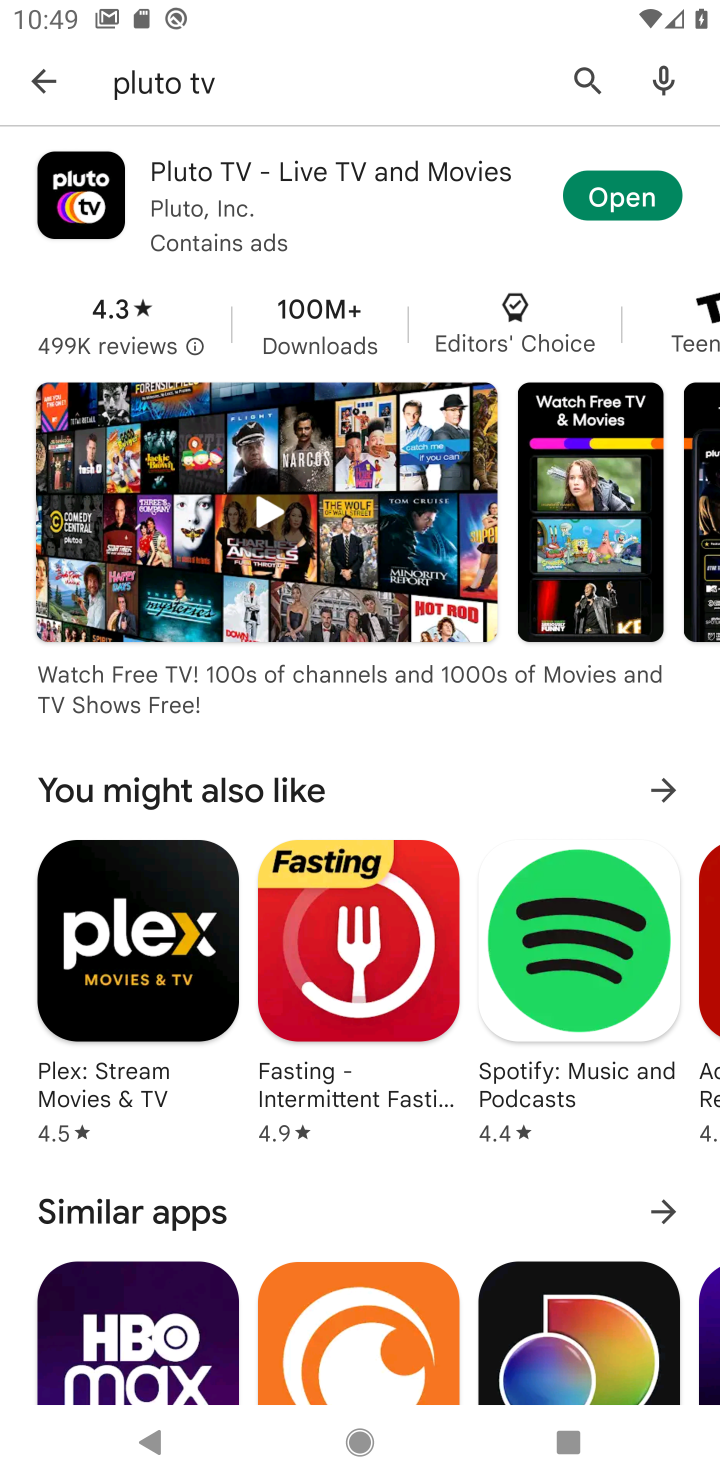
Step 30: click (51, 79)
Your task to perform on an android device: uninstall "Google Duo" Image 31: 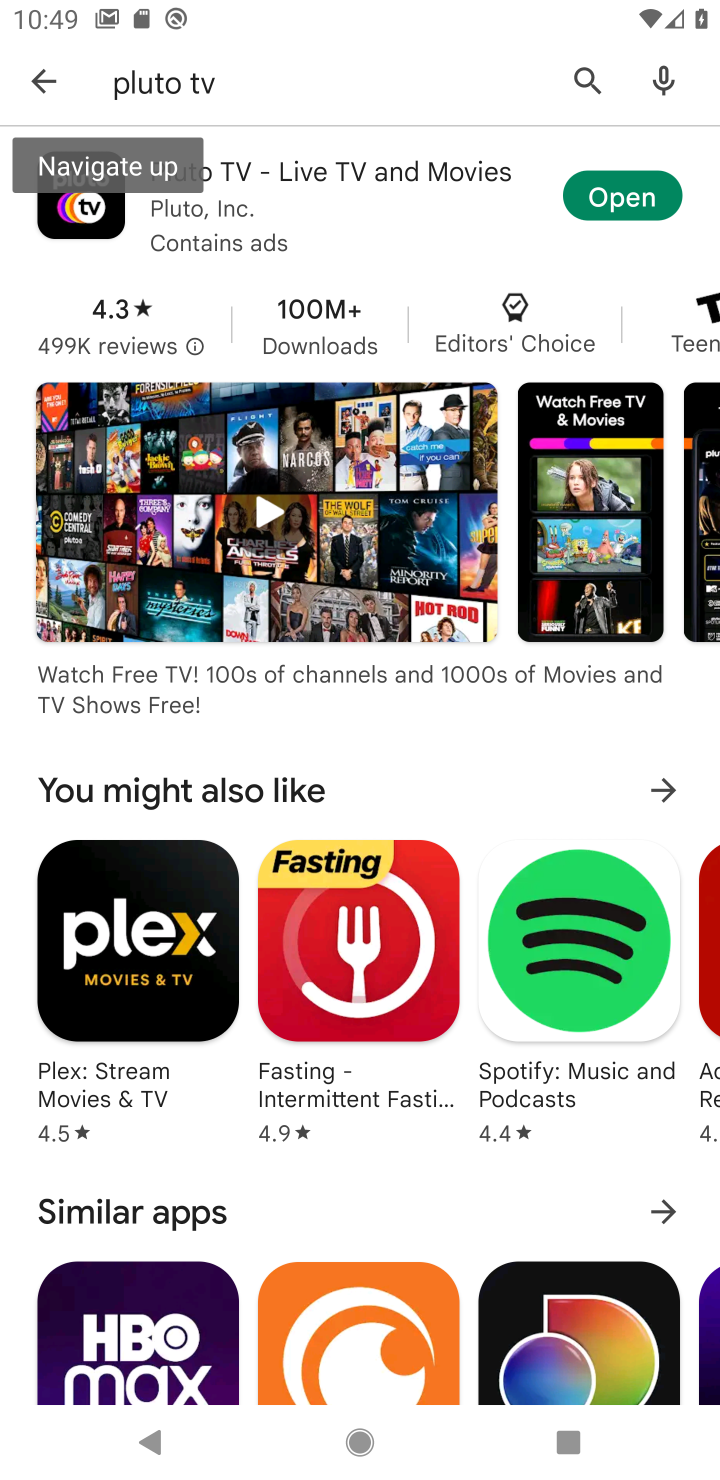
Step 31: click (51, 74)
Your task to perform on an android device: uninstall "Google Duo" Image 32: 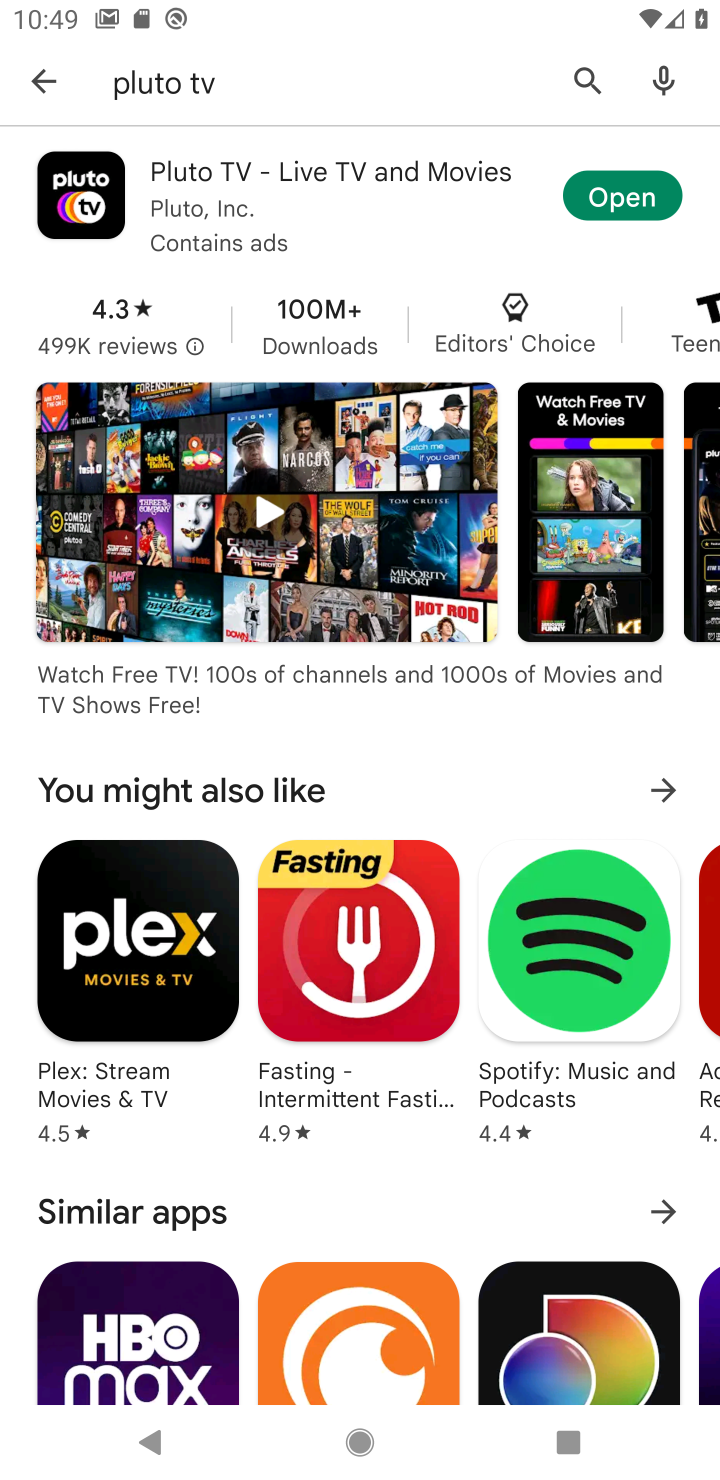
Step 32: click (50, 64)
Your task to perform on an android device: uninstall "Google Duo" Image 33: 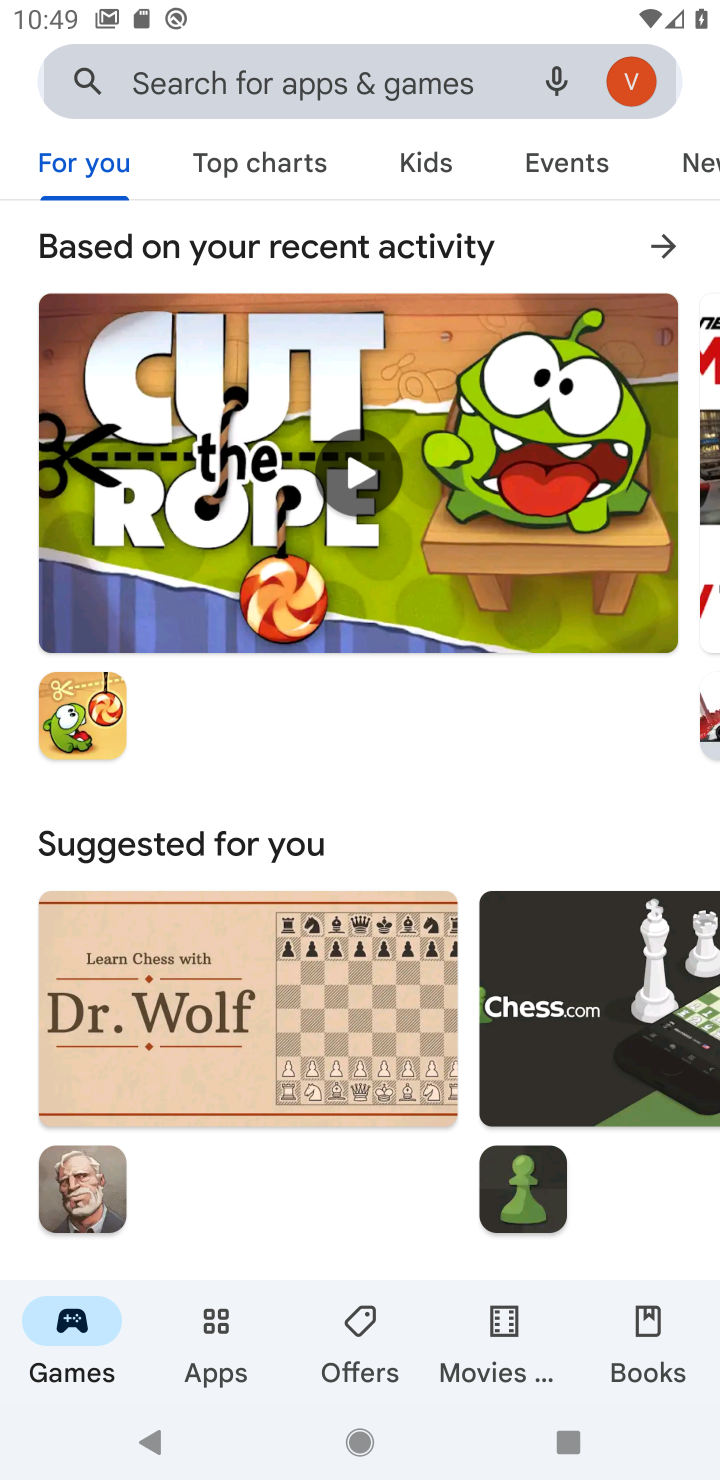
Step 33: click (232, 94)
Your task to perform on an android device: uninstall "Google Duo" Image 34: 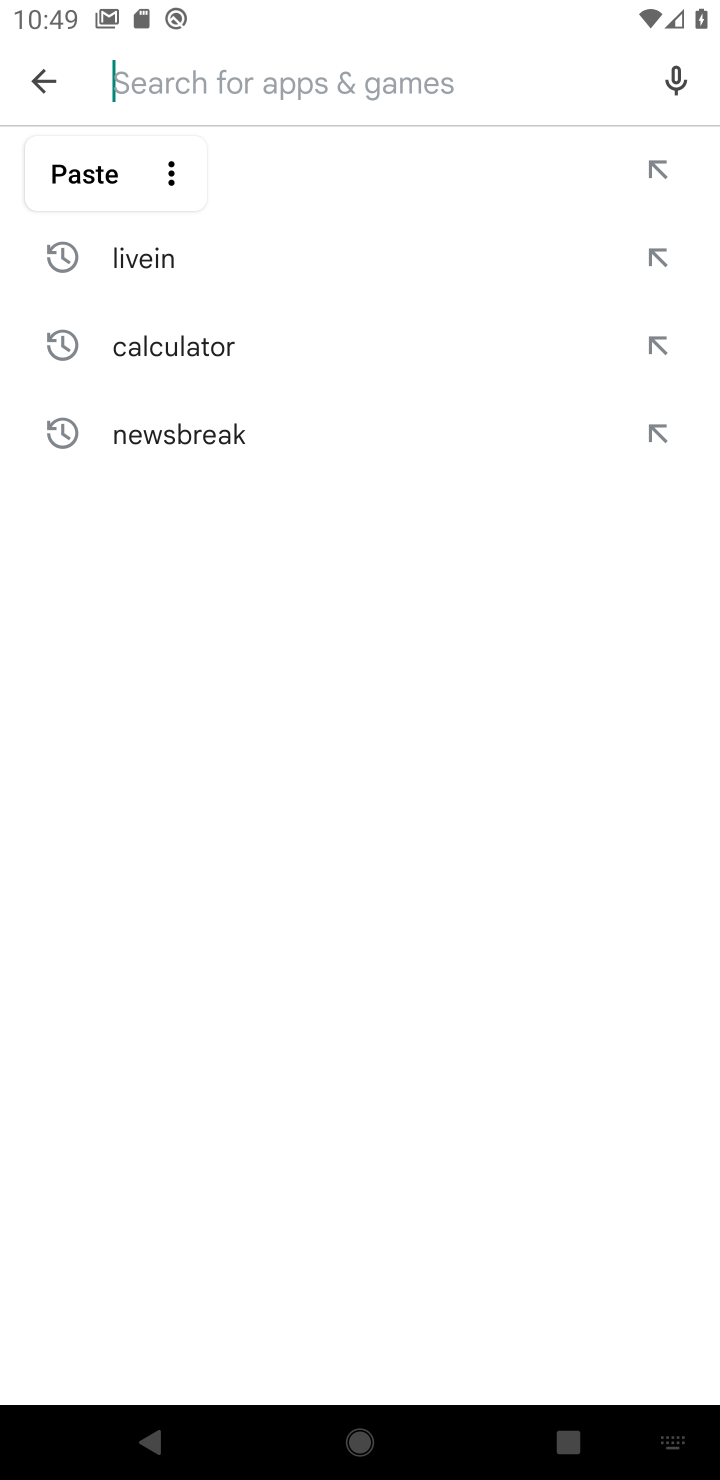
Step 34: type "google duo"
Your task to perform on an android device: uninstall "Google Duo" Image 35: 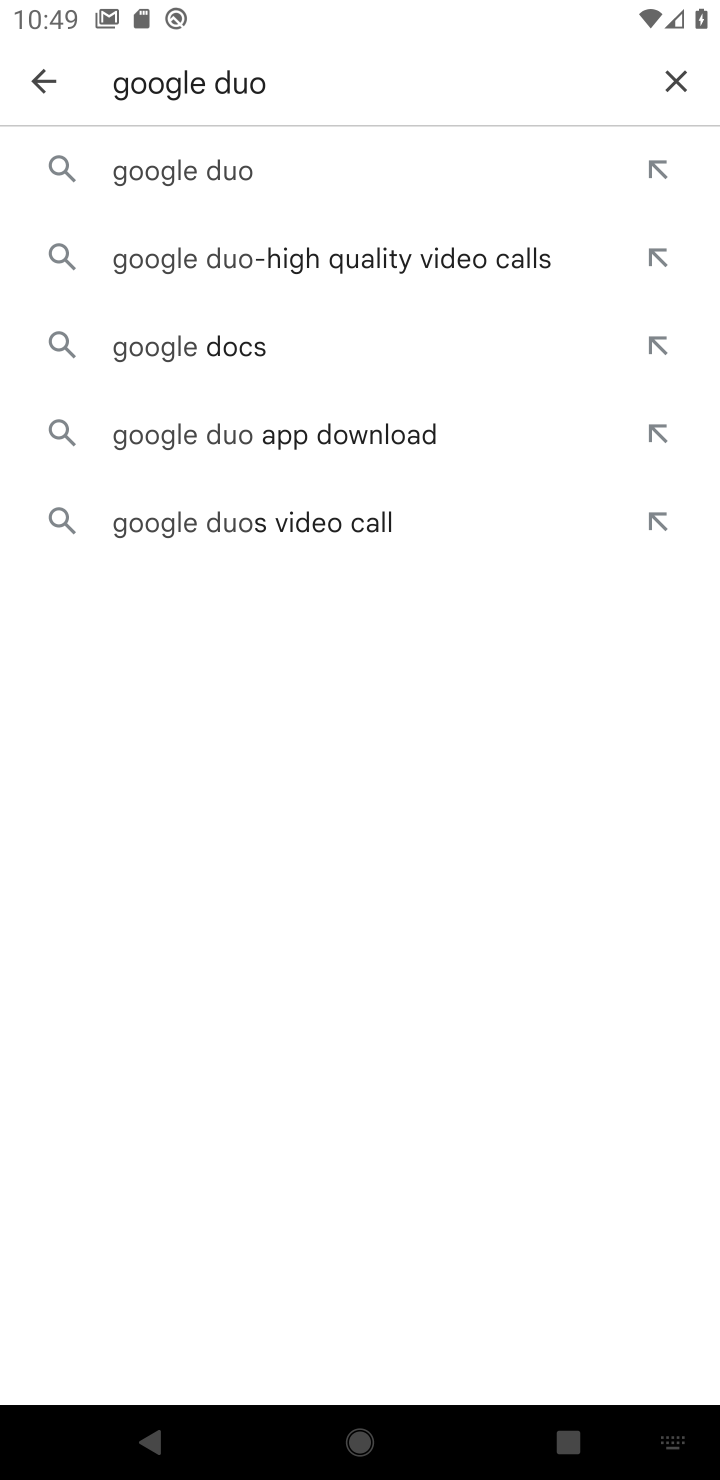
Step 35: click (226, 188)
Your task to perform on an android device: uninstall "Google Duo" Image 36: 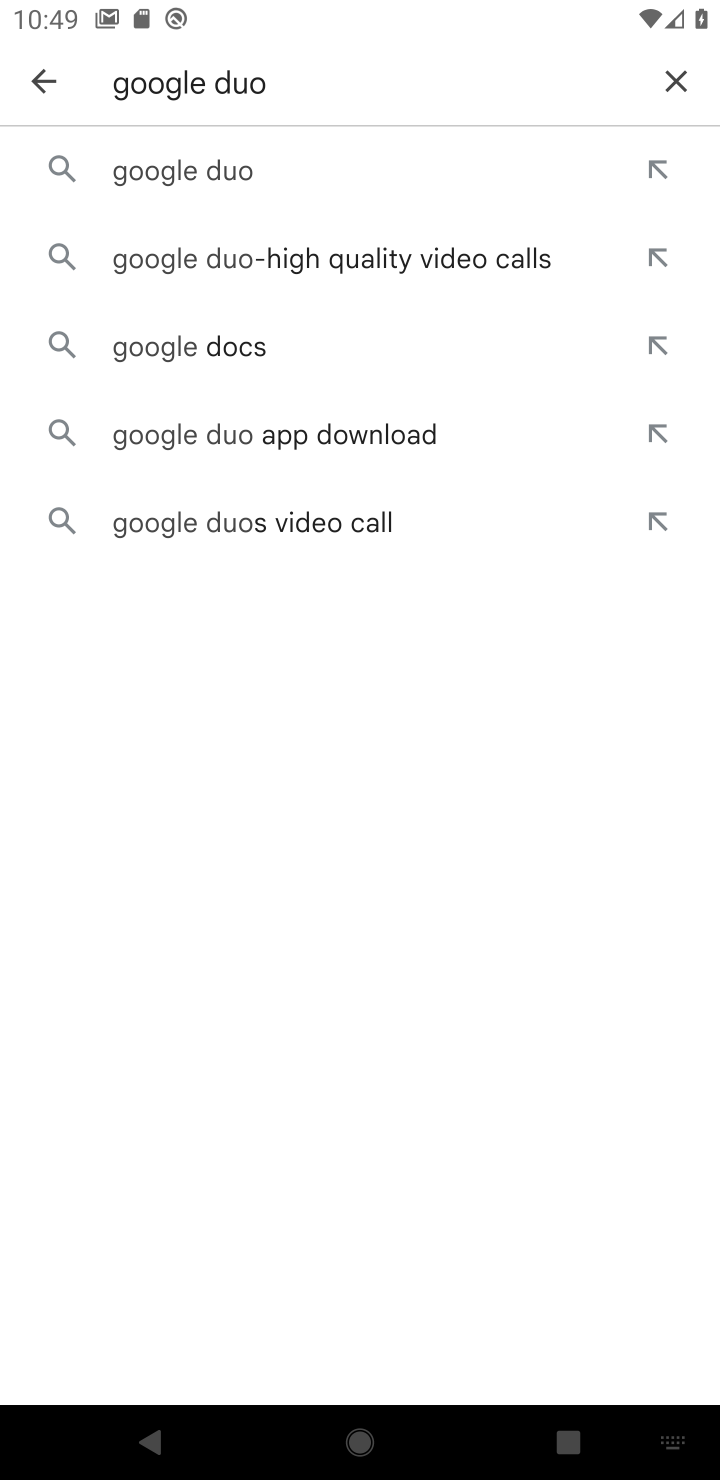
Step 36: click (223, 190)
Your task to perform on an android device: uninstall "Google Duo" Image 37: 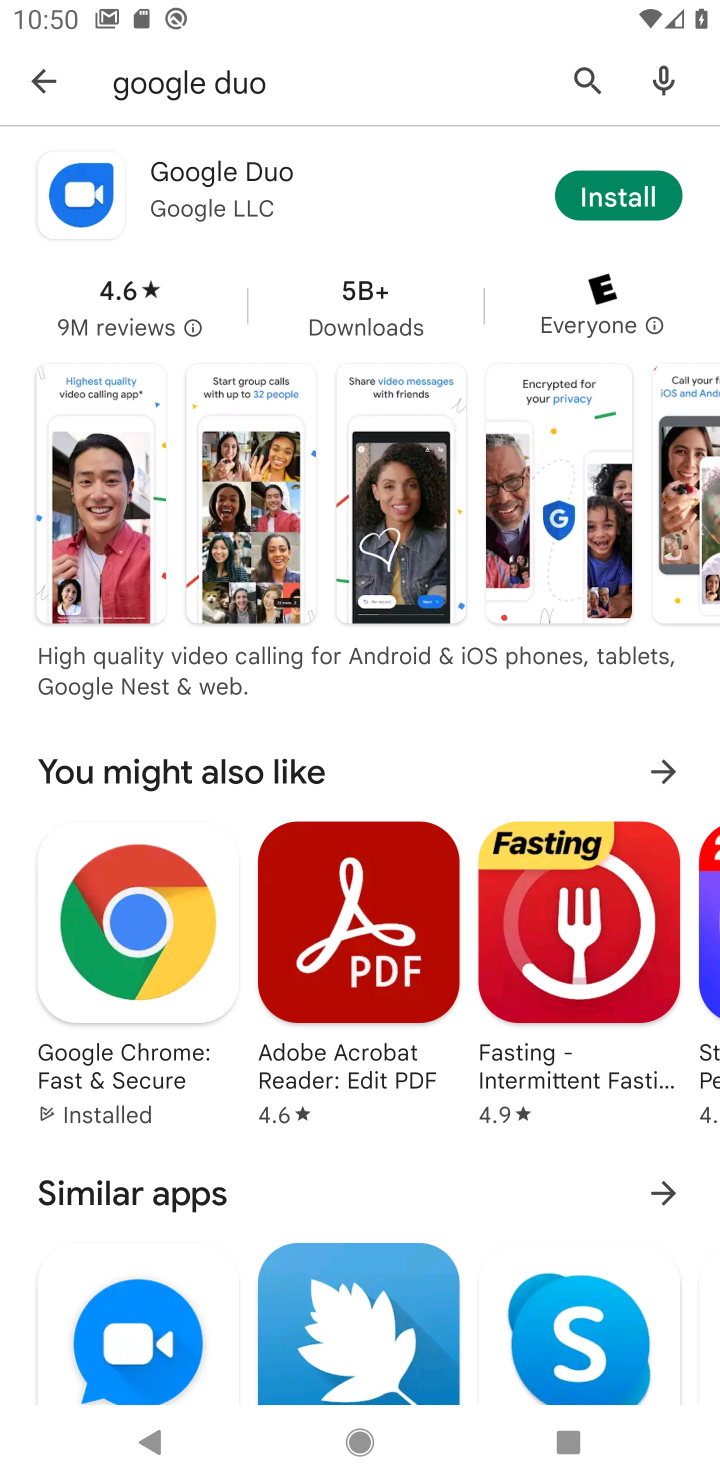
Step 37: click (606, 200)
Your task to perform on an android device: uninstall "Google Duo" Image 38: 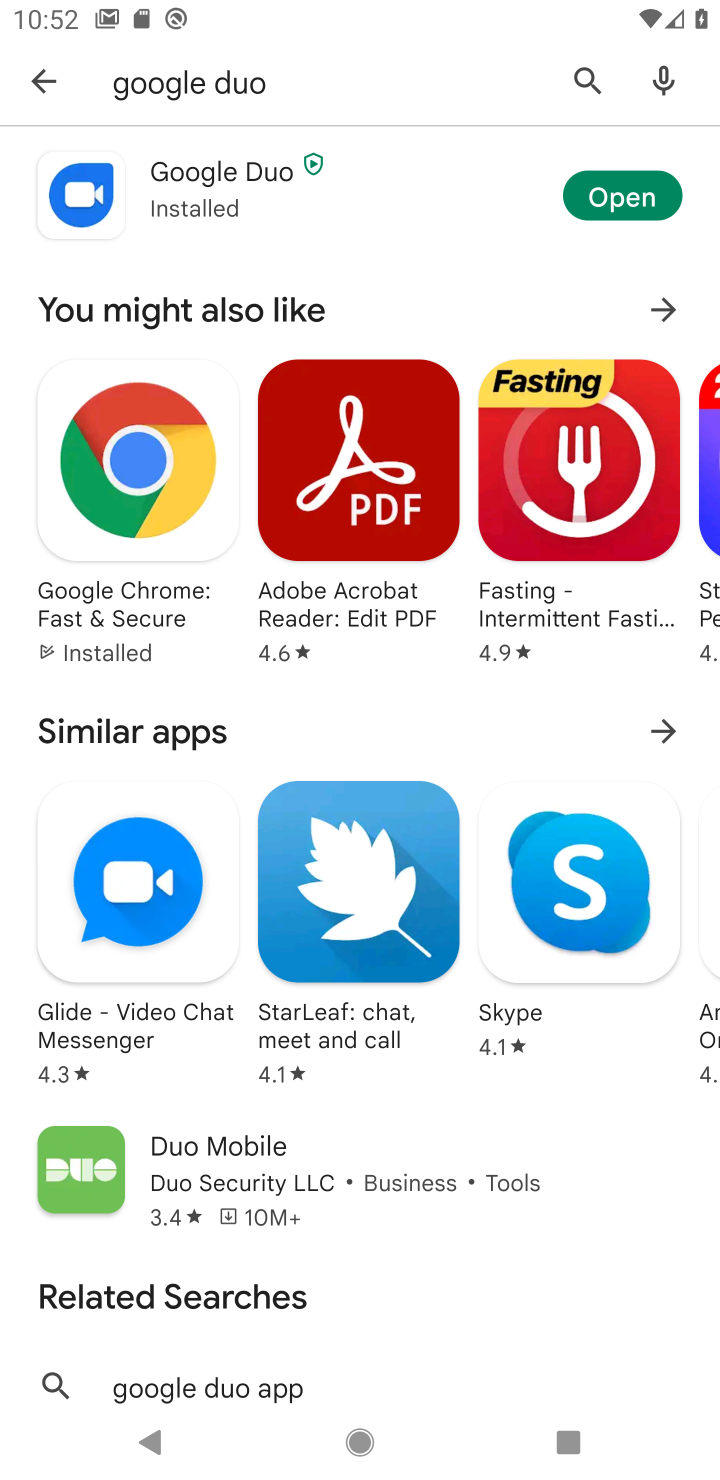
Step 38: click (657, 204)
Your task to perform on an android device: uninstall "Google Duo" Image 39: 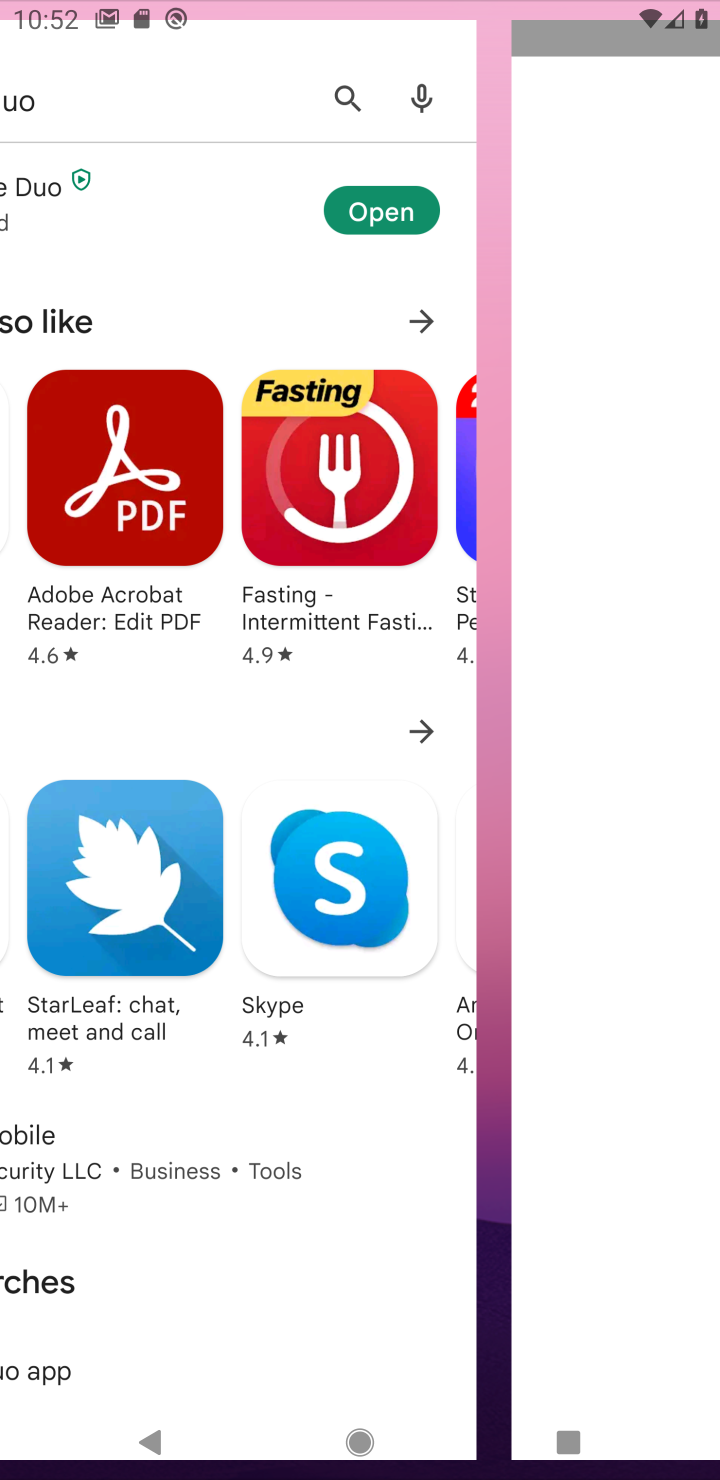
Step 39: click (650, 204)
Your task to perform on an android device: uninstall "Google Duo" Image 40: 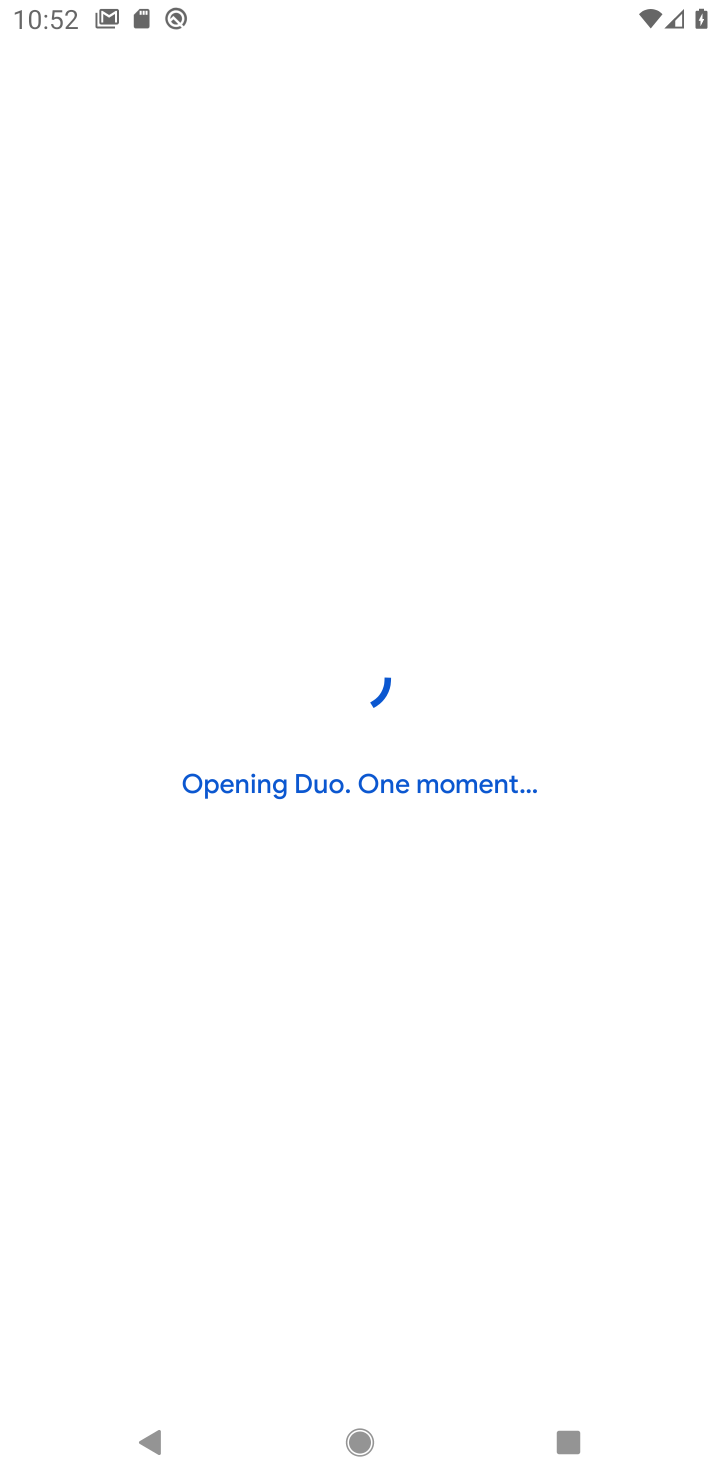
Step 40: click (376, 546)
Your task to perform on an android device: uninstall "Google Duo" Image 41: 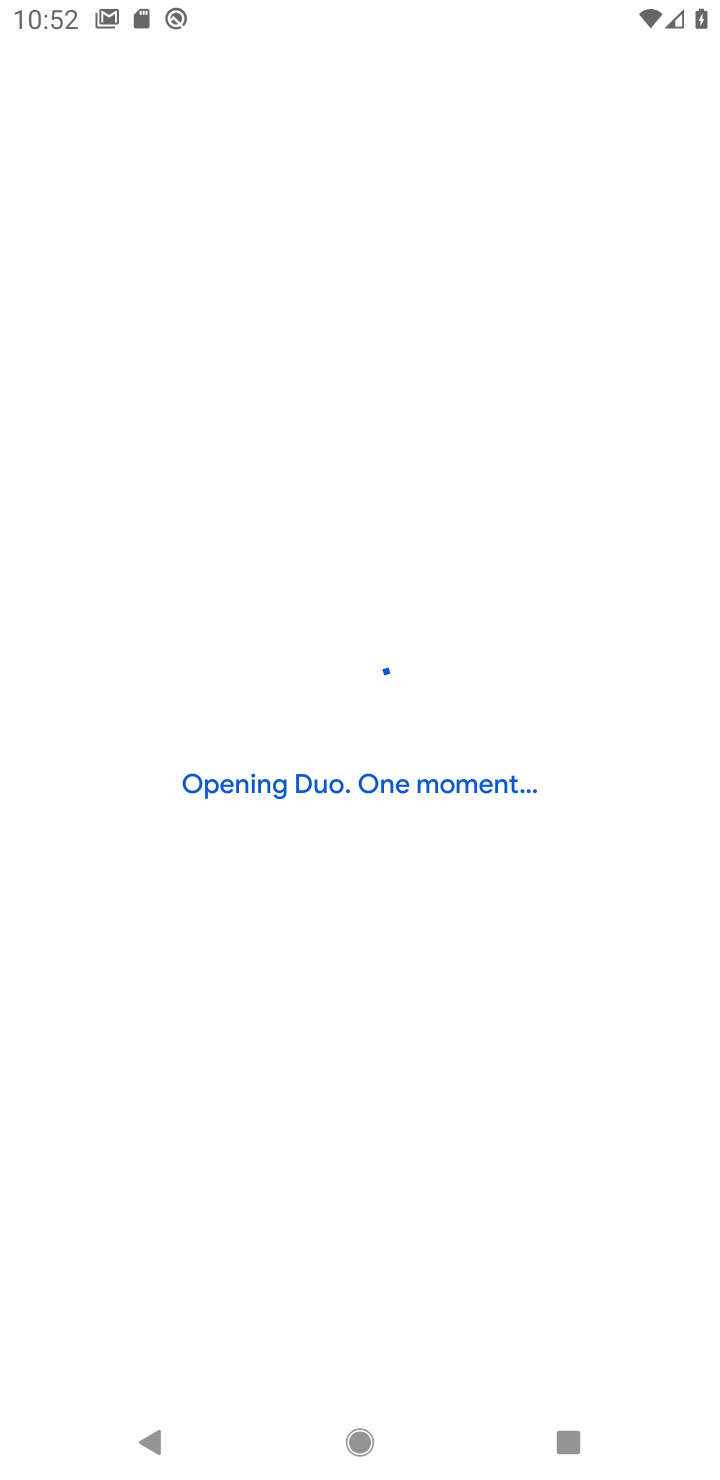
Step 41: click (459, 651)
Your task to perform on an android device: uninstall "Google Duo" Image 42: 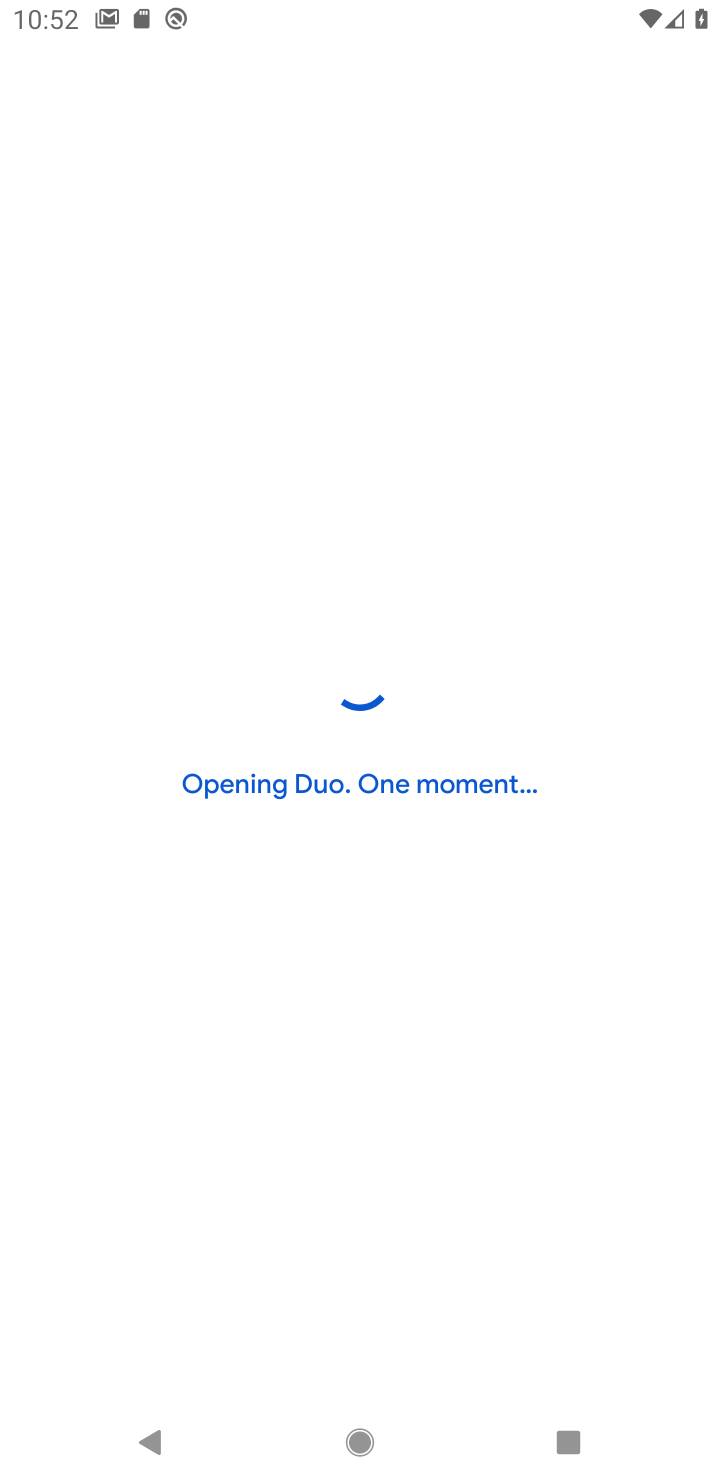
Step 42: click (384, 711)
Your task to perform on an android device: uninstall "Google Duo" Image 43: 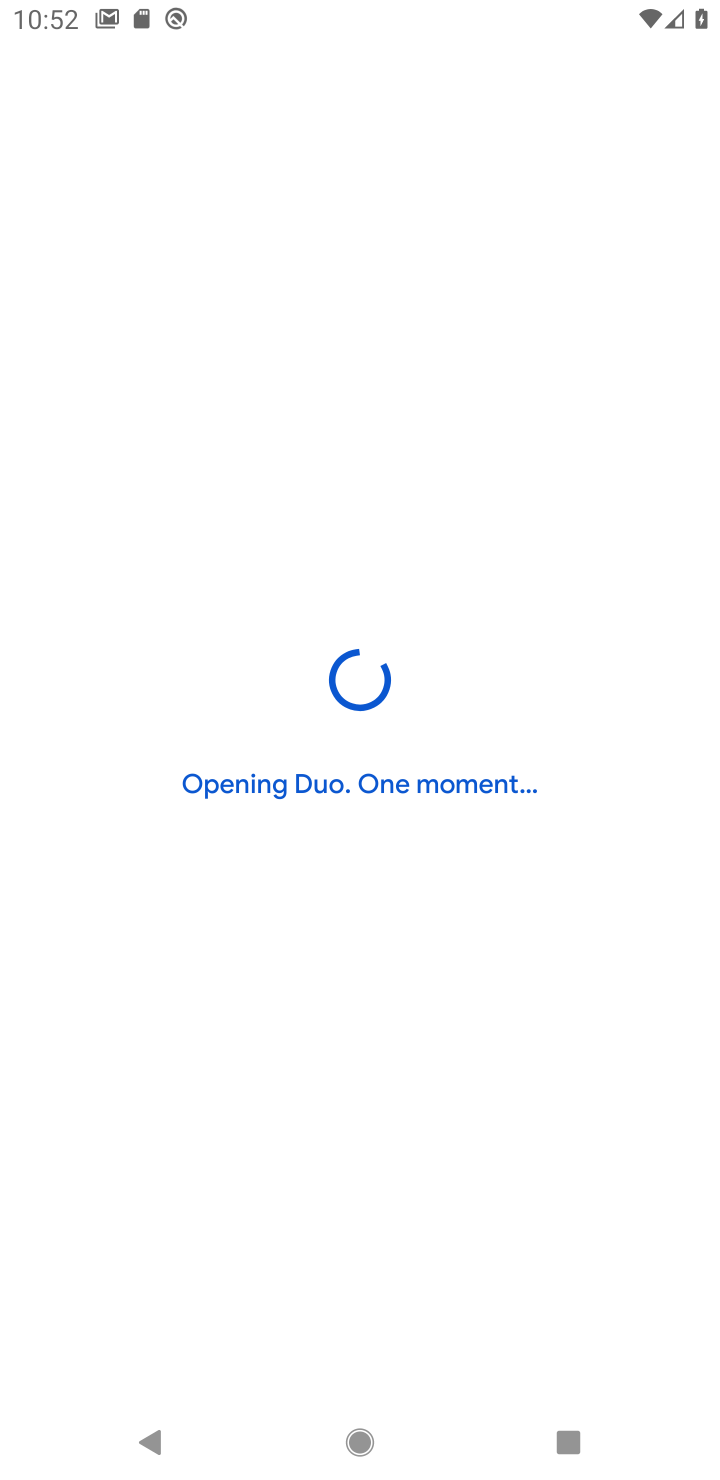
Step 43: click (296, 717)
Your task to perform on an android device: uninstall "Google Duo" Image 44: 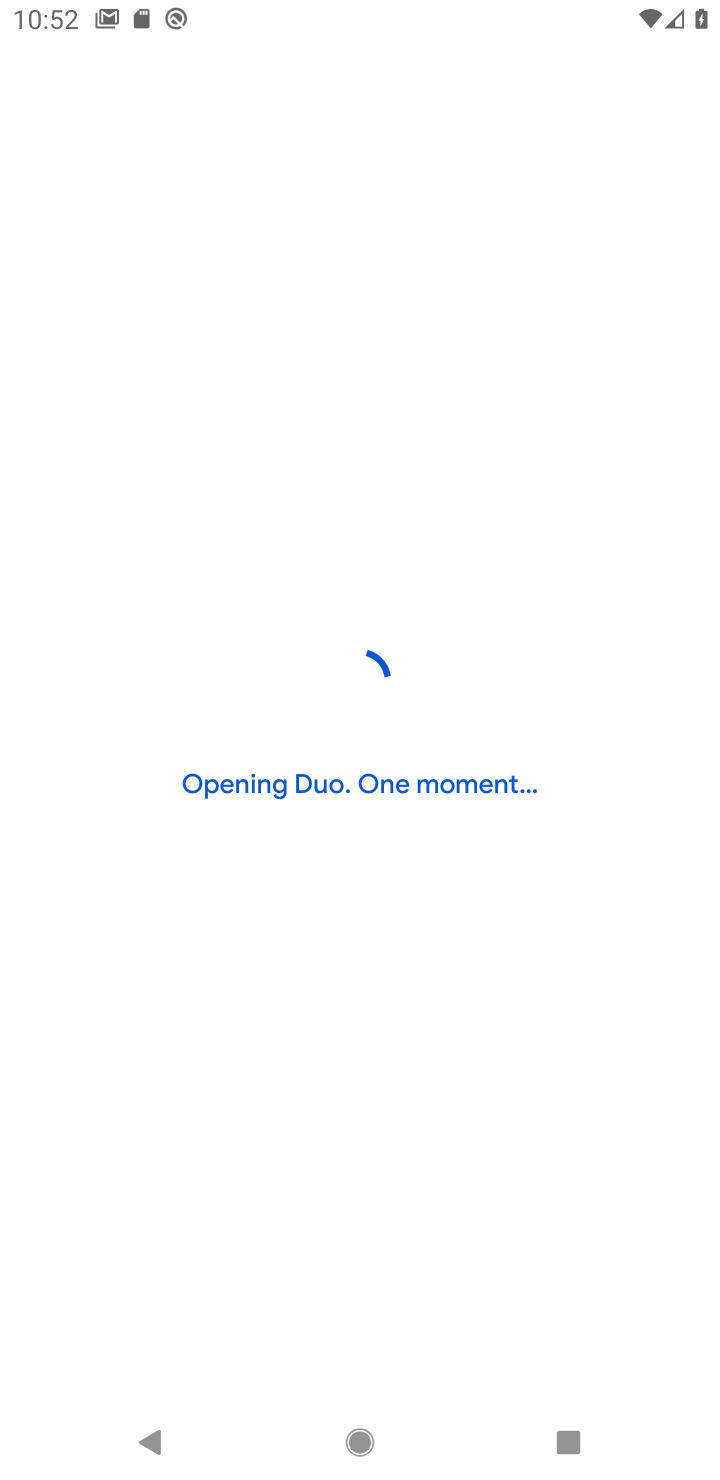
Step 44: click (351, 710)
Your task to perform on an android device: uninstall "Google Duo" Image 45: 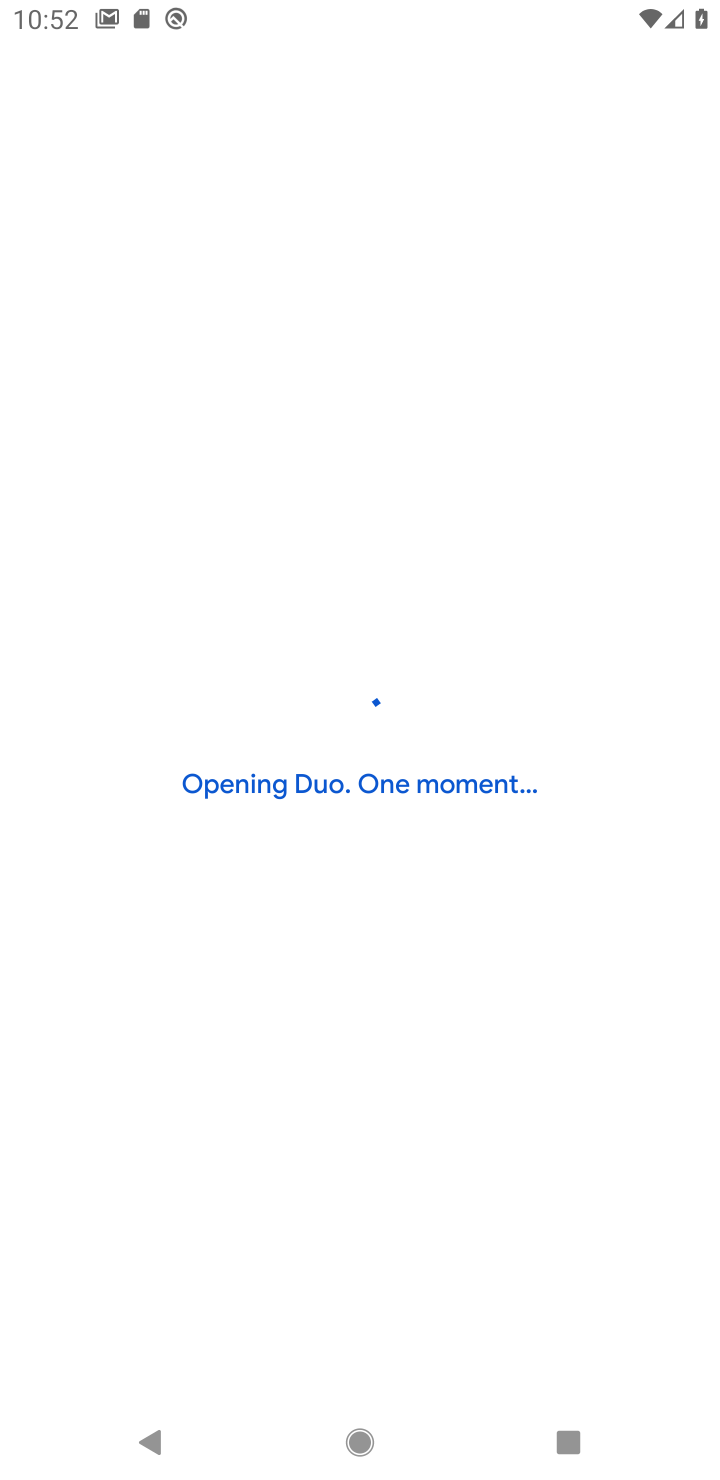
Step 45: click (356, 699)
Your task to perform on an android device: uninstall "Google Duo" Image 46: 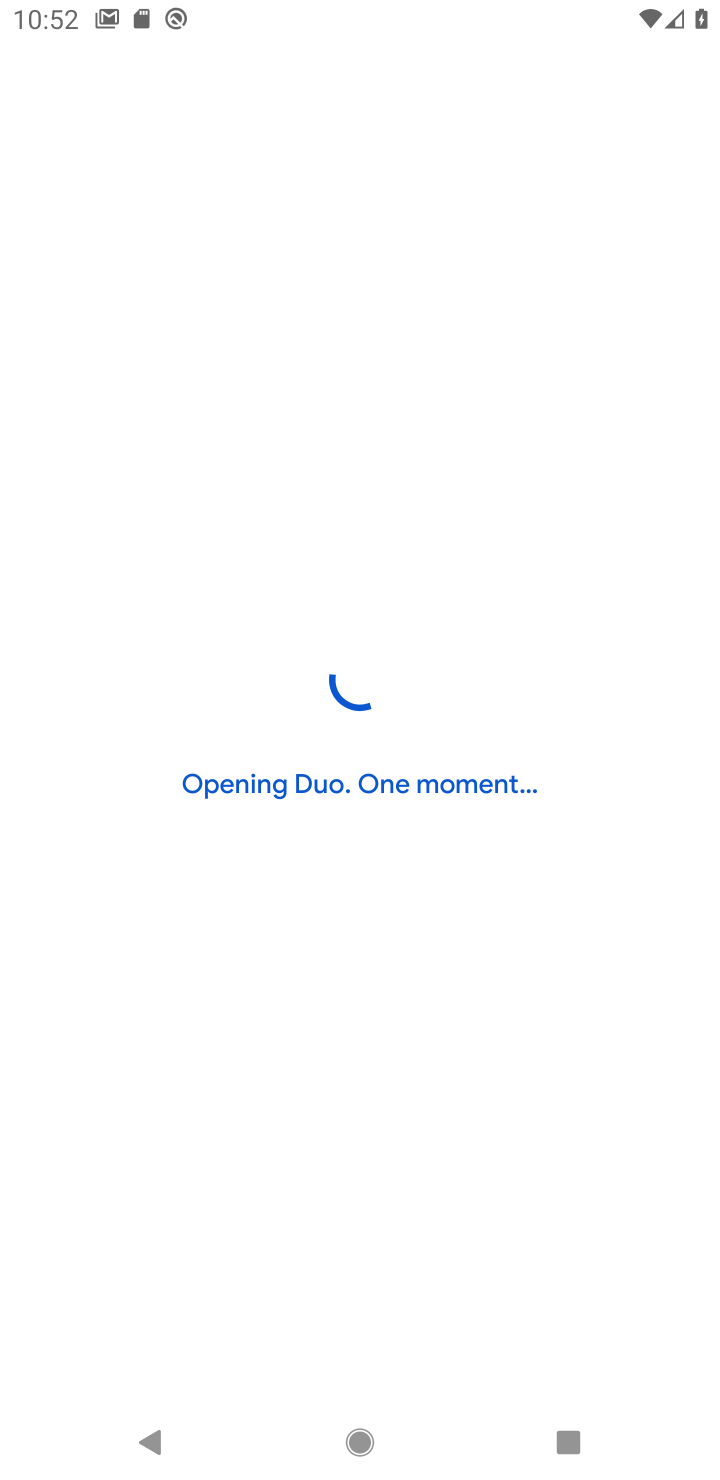
Step 46: click (364, 679)
Your task to perform on an android device: uninstall "Google Duo" Image 47: 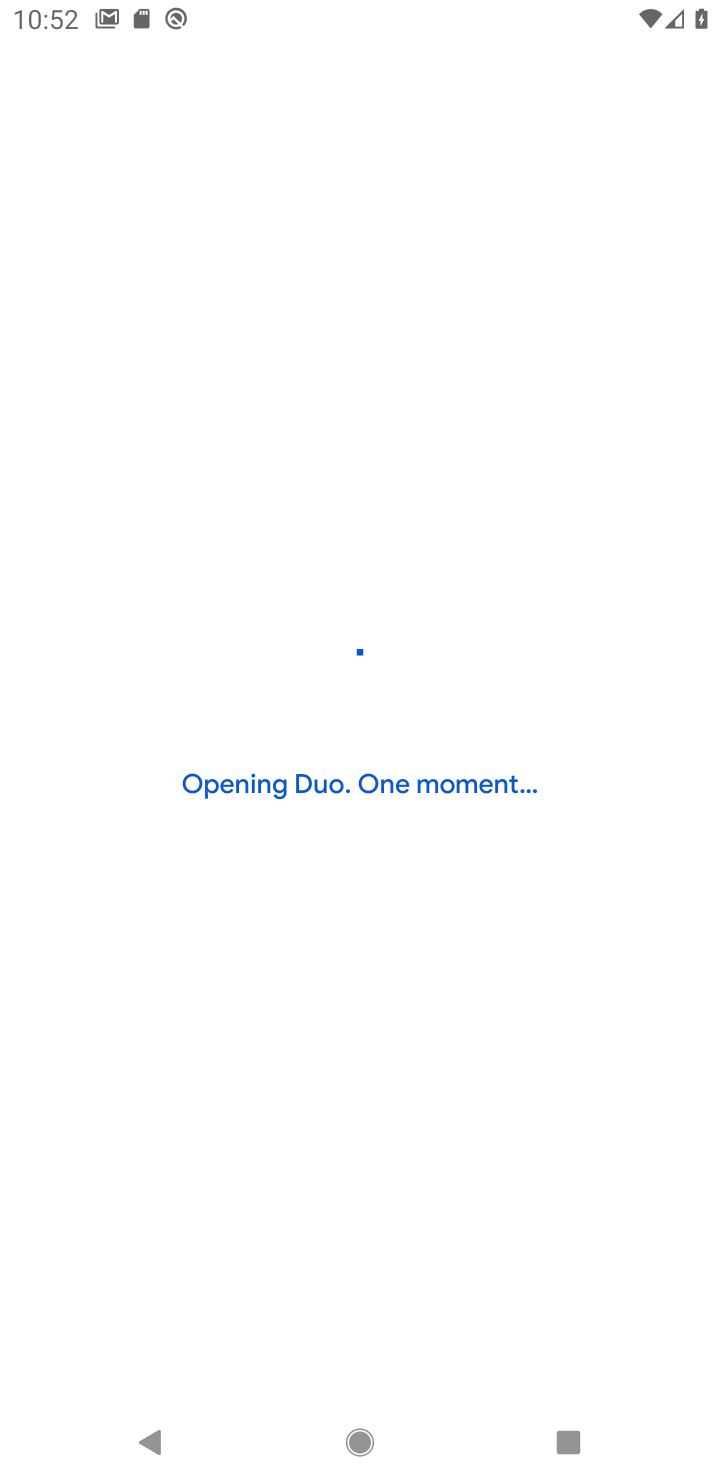
Step 47: click (379, 670)
Your task to perform on an android device: uninstall "Google Duo" Image 48: 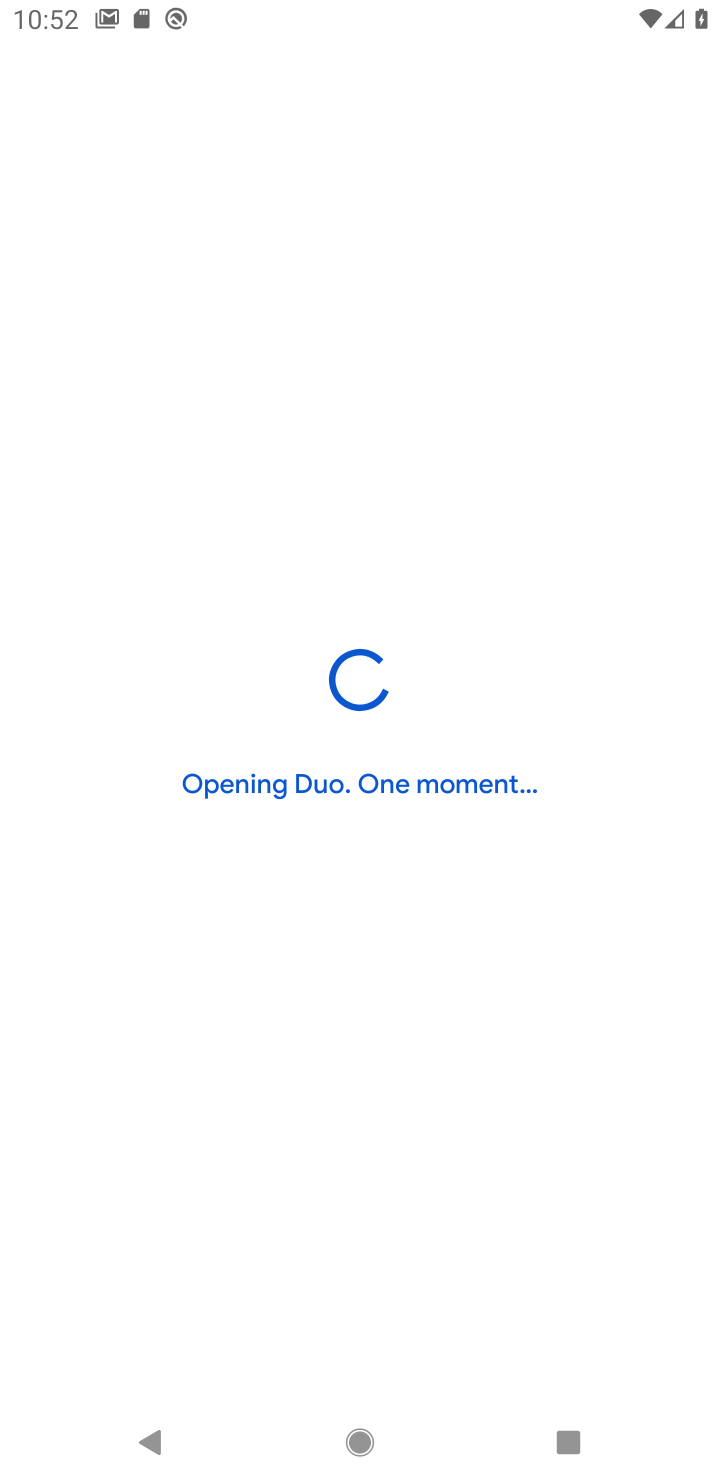
Step 48: click (382, 662)
Your task to perform on an android device: uninstall "Google Duo" Image 49: 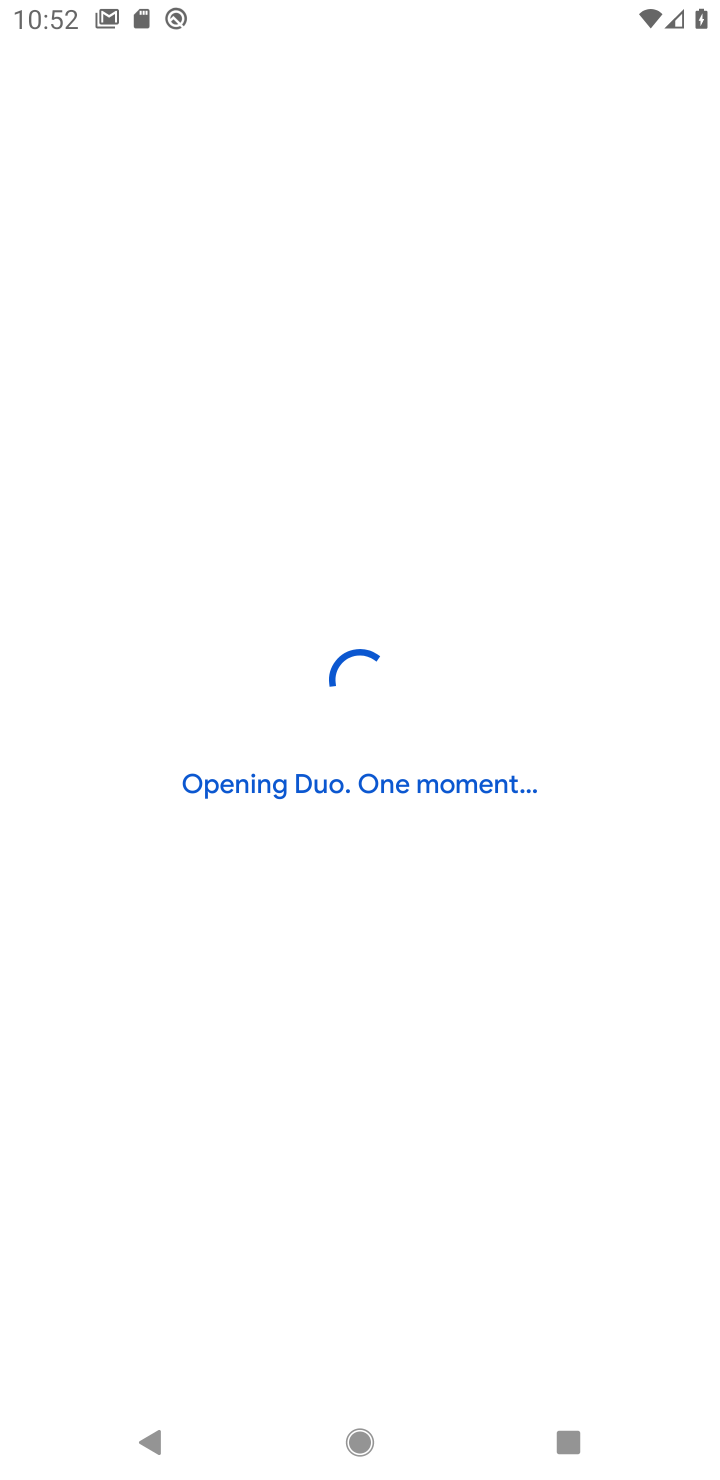
Step 49: click (367, 778)
Your task to perform on an android device: uninstall "Google Duo" Image 50: 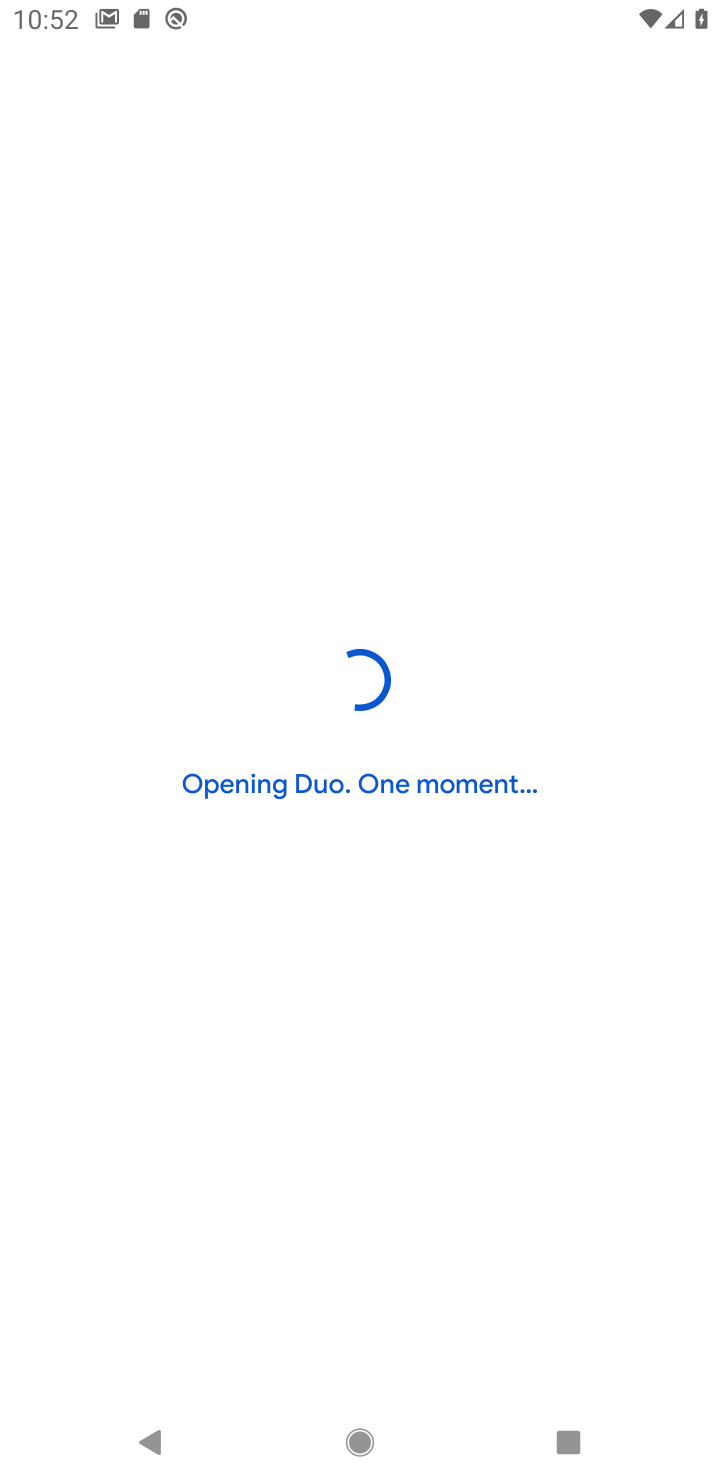
Step 50: task complete